Your task to perform on an android device: Show the shopping cart on bestbuy. Search for "logitech g933" on bestbuy, select the first entry, and add it to the cart. Image 0: 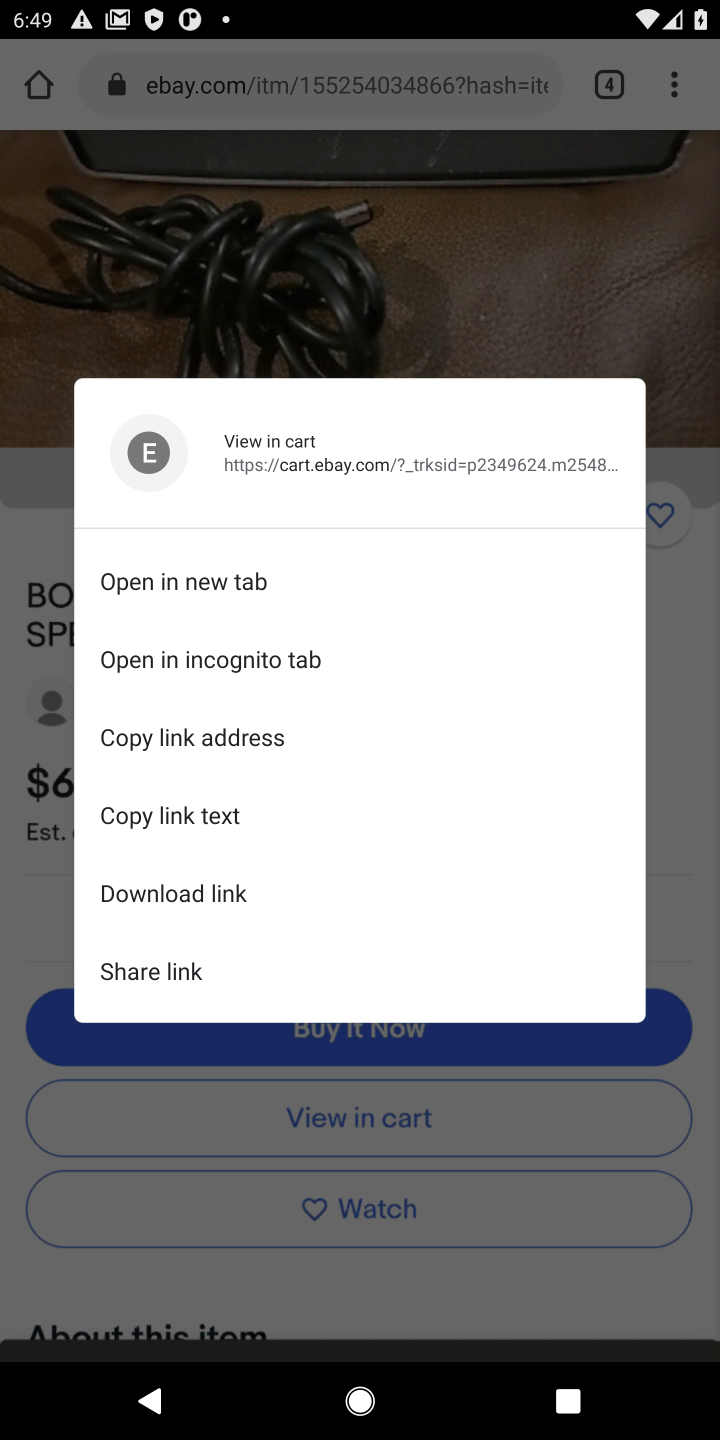
Step 0: click (211, 69)
Your task to perform on an android device: Show the shopping cart on bestbuy. Search for "logitech g933" on bestbuy, select the first entry, and add it to the cart. Image 1: 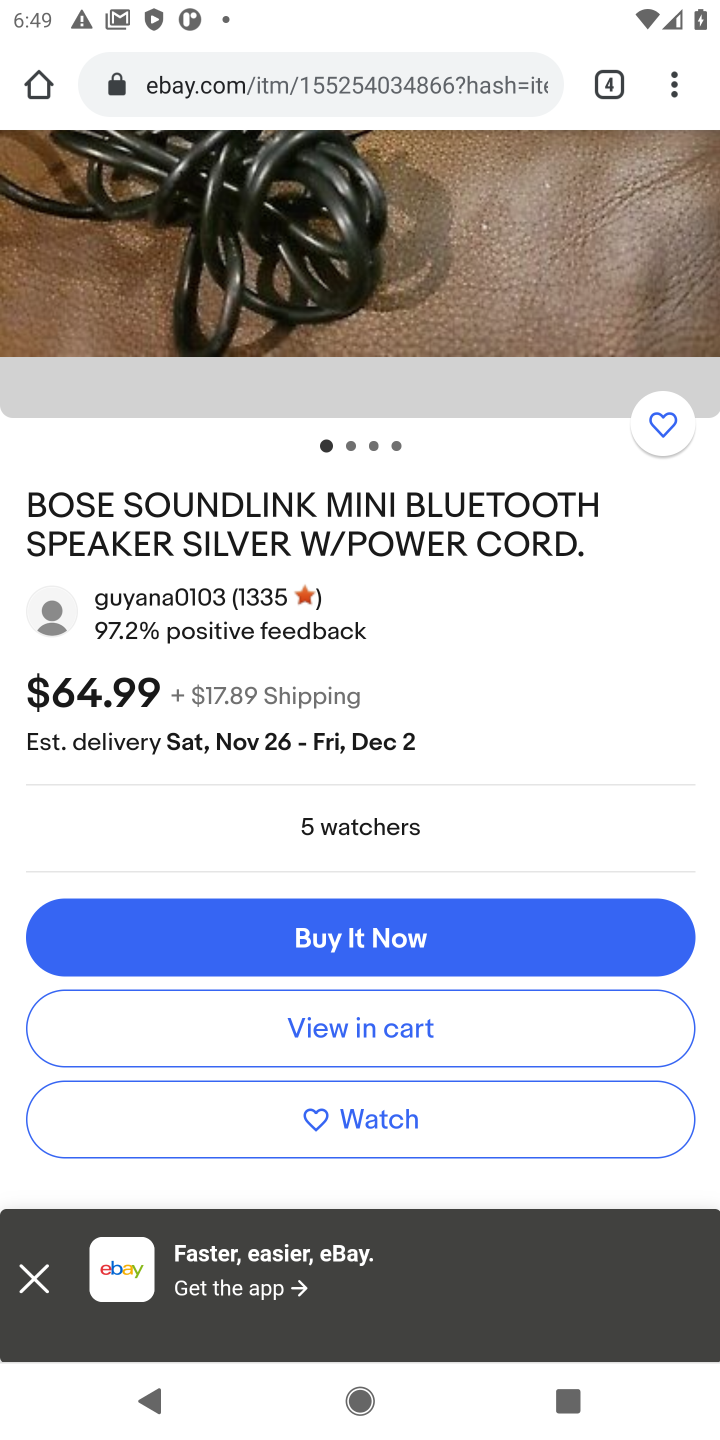
Step 1: click (213, 68)
Your task to perform on an android device: Show the shopping cart on bestbuy. Search for "logitech g933" on bestbuy, select the first entry, and add it to the cart. Image 2: 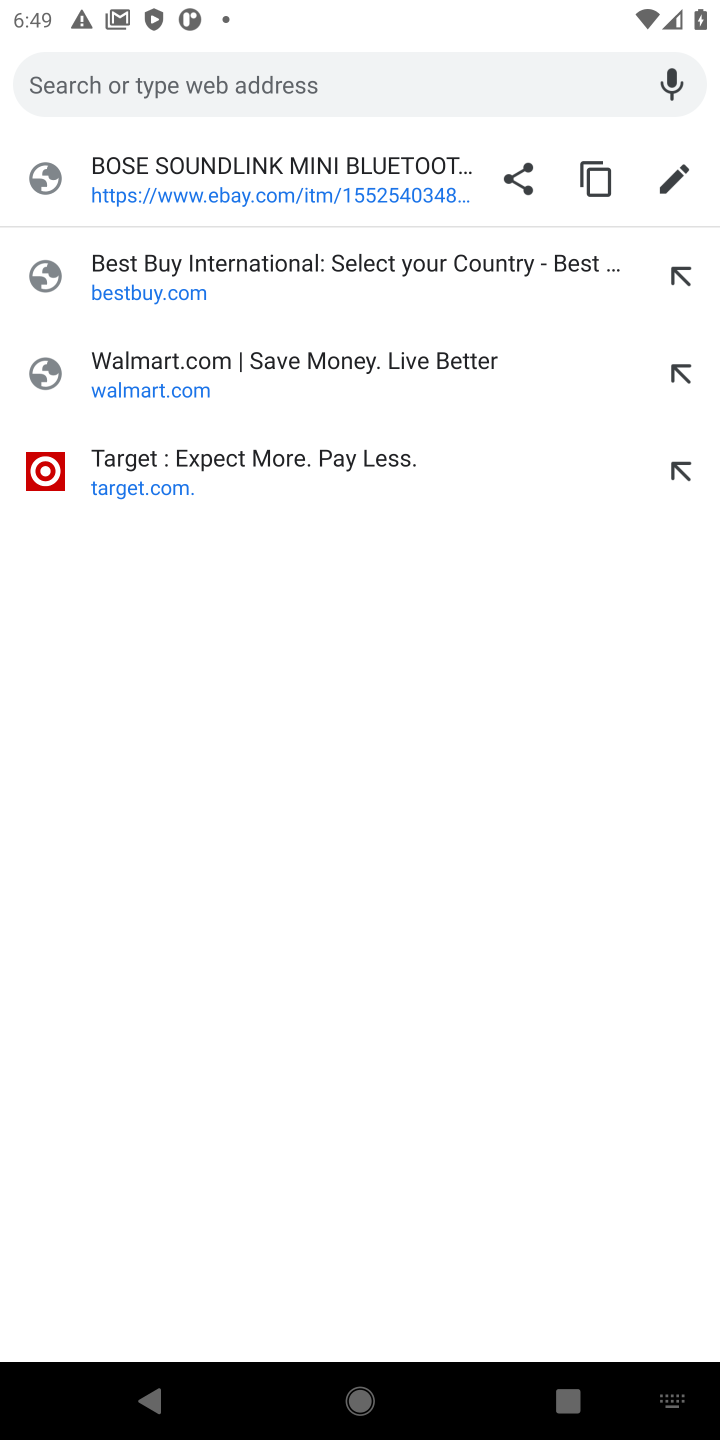
Step 2: type "bestbuy"
Your task to perform on an android device: Show the shopping cart on bestbuy. Search for "logitech g933" on bestbuy, select the first entry, and add it to the cart. Image 3: 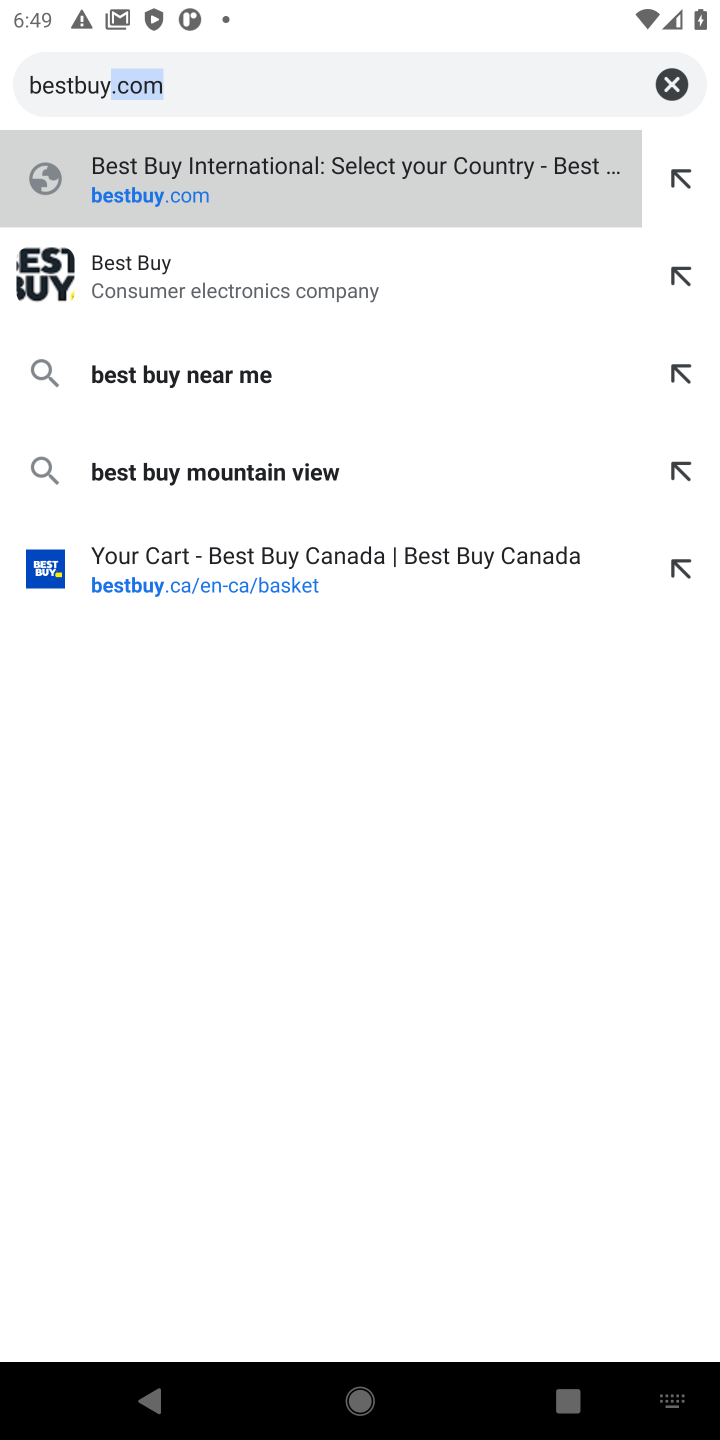
Step 3: press enter
Your task to perform on an android device: Show the shopping cart on bestbuy. Search for "logitech g933" on bestbuy, select the first entry, and add it to the cart. Image 4: 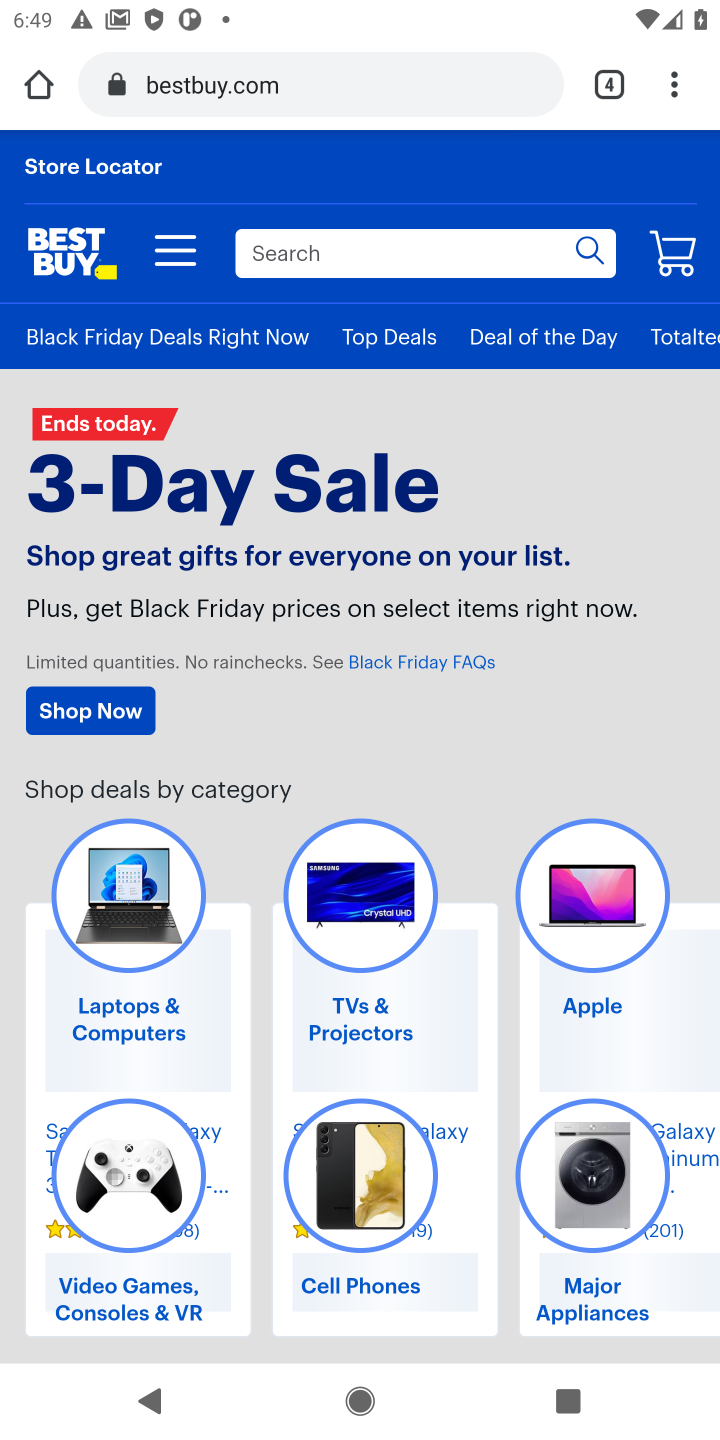
Step 4: click (373, 252)
Your task to perform on an android device: Show the shopping cart on bestbuy. Search for "logitech g933" on bestbuy, select the first entry, and add it to the cart. Image 5: 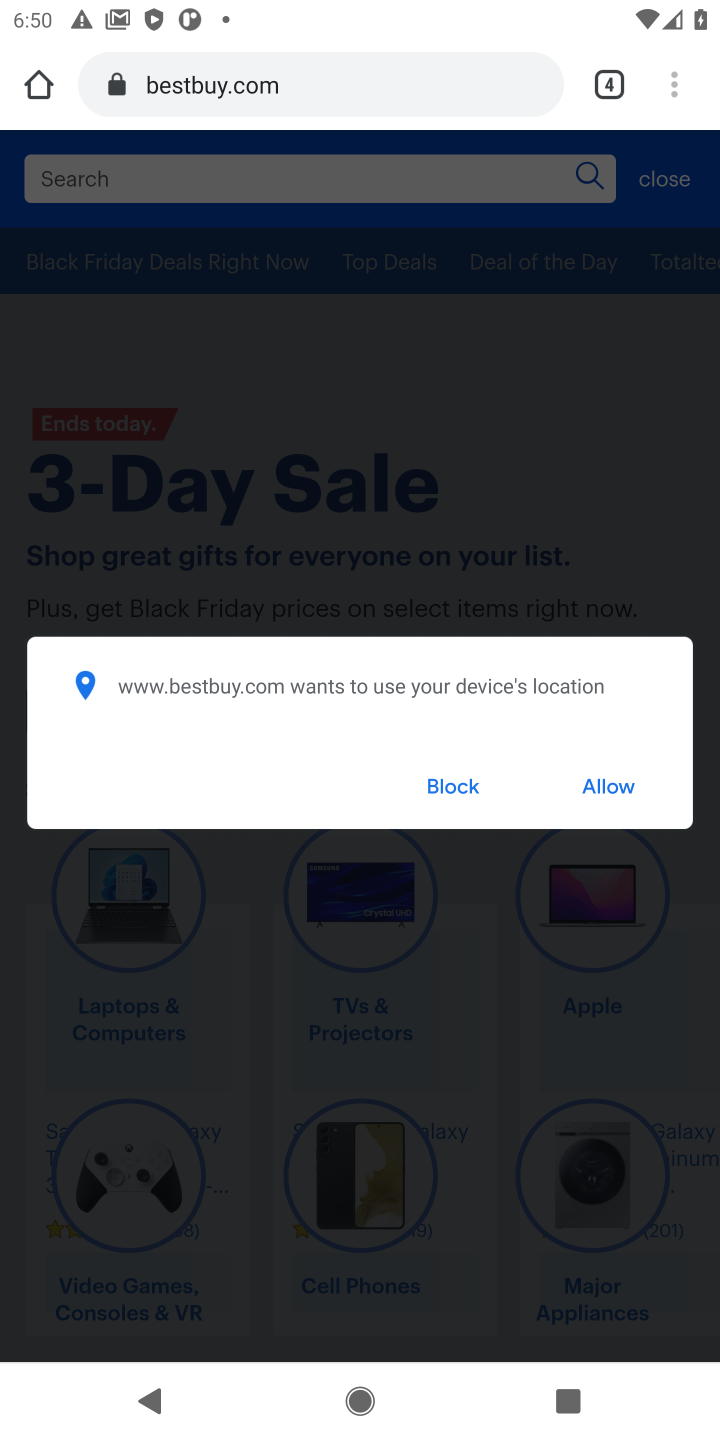
Step 5: click (610, 780)
Your task to perform on an android device: Show the shopping cart on bestbuy. Search for "logitech g933" on bestbuy, select the first entry, and add it to the cart. Image 6: 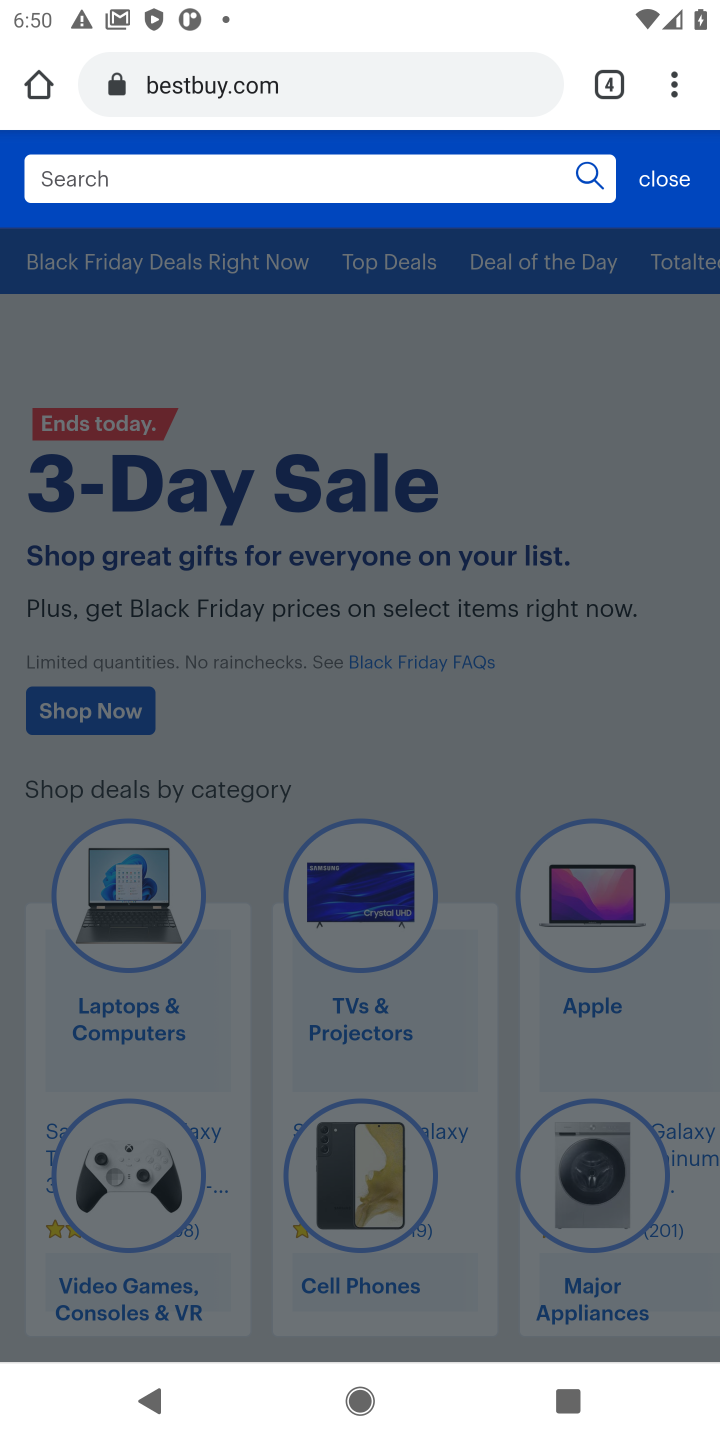
Step 6: type "ogitech g933"
Your task to perform on an android device: Show the shopping cart on bestbuy. Search for "logitech g933" on bestbuy, select the first entry, and add it to the cart. Image 7: 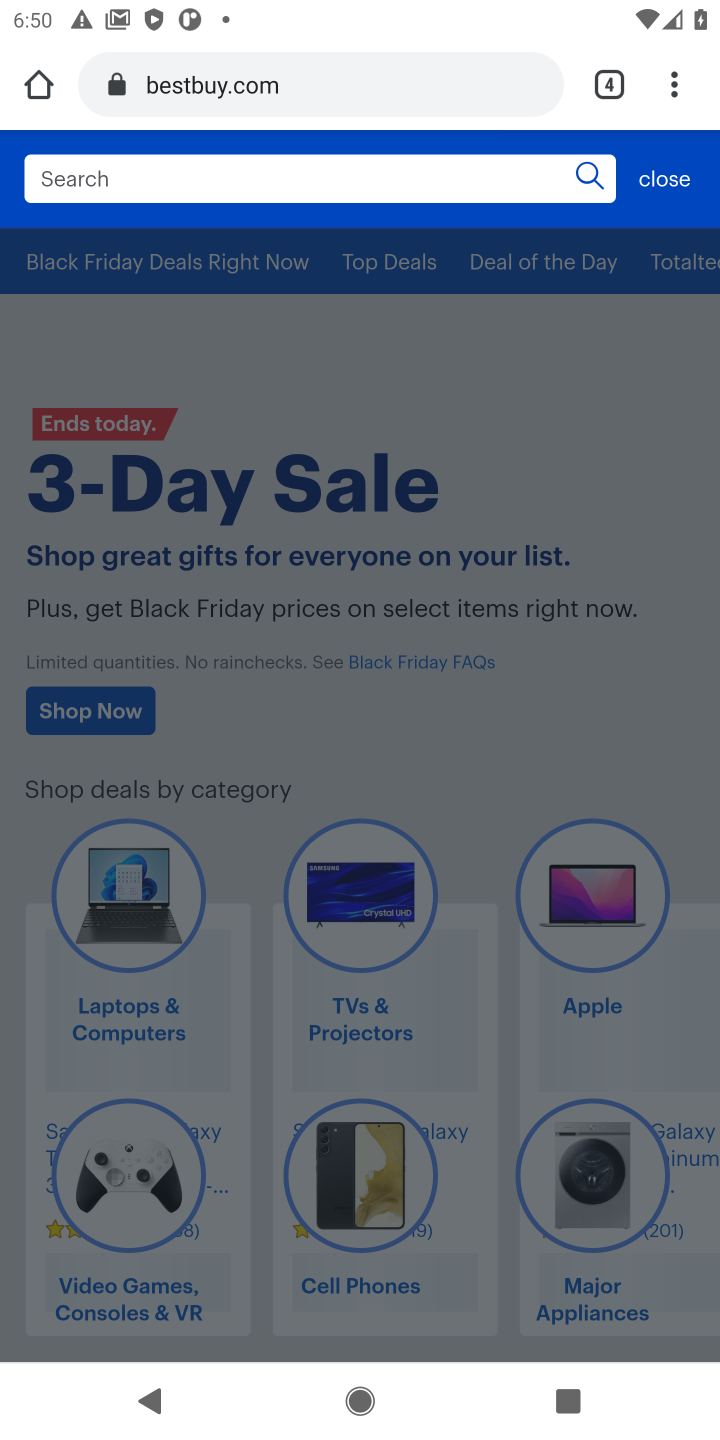
Step 7: press enter
Your task to perform on an android device: Show the shopping cart on bestbuy. Search for "logitech g933" on bestbuy, select the first entry, and add it to the cart. Image 8: 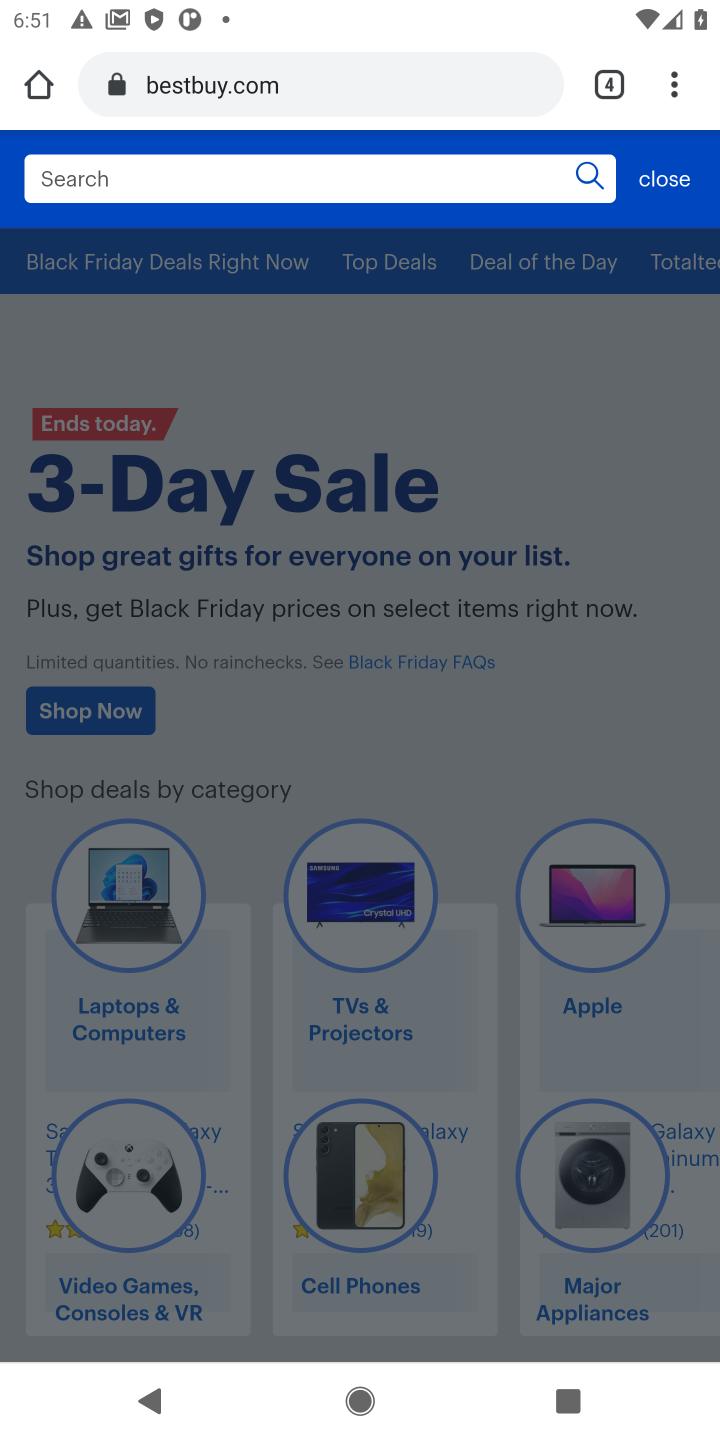
Step 8: click (67, 193)
Your task to perform on an android device: Show the shopping cart on bestbuy. Search for "logitech g933" on bestbuy, select the first entry, and add it to the cart. Image 9: 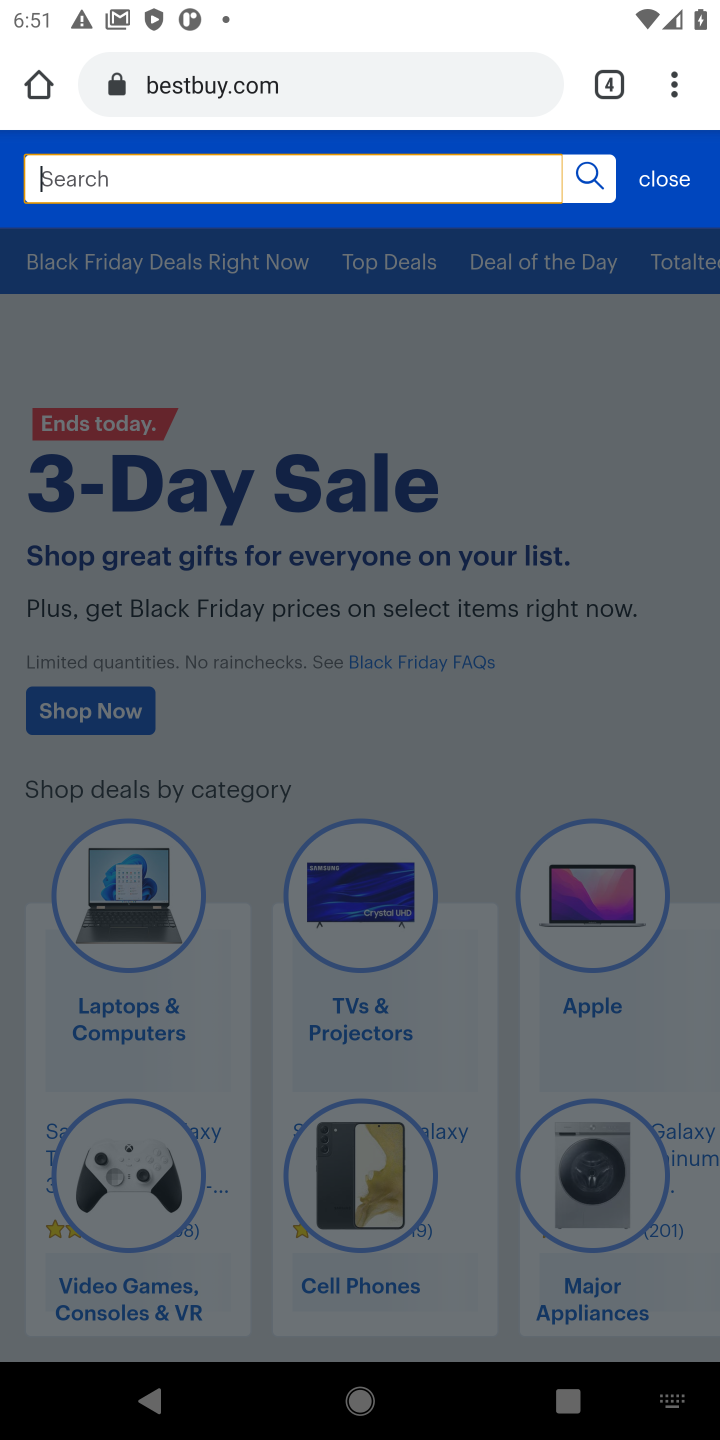
Step 9: type "logitech g933""
Your task to perform on an android device: Show the shopping cart on bestbuy. Search for "logitech g933" on bestbuy, select the first entry, and add it to the cart. Image 10: 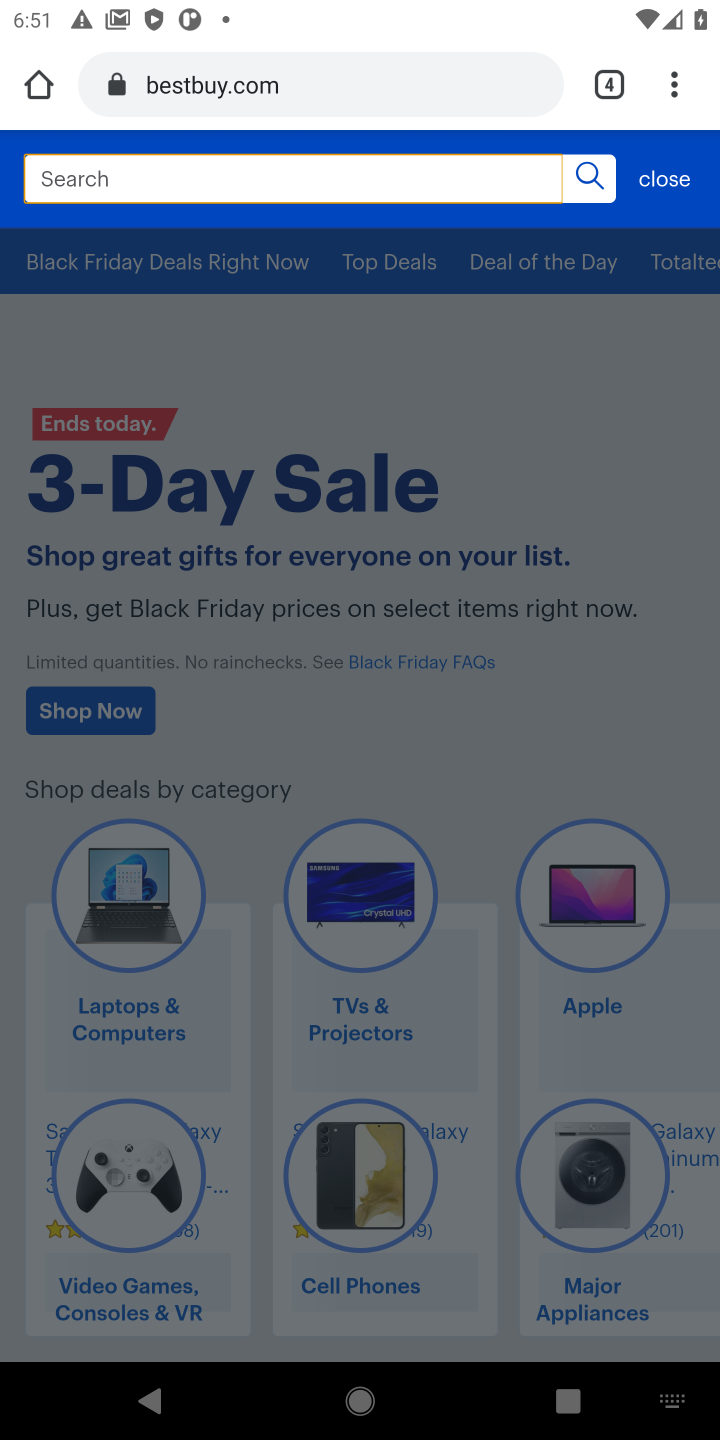
Step 10: press enter
Your task to perform on an android device: Show the shopping cart on bestbuy. Search for "logitech g933" on bestbuy, select the first entry, and add it to the cart. Image 11: 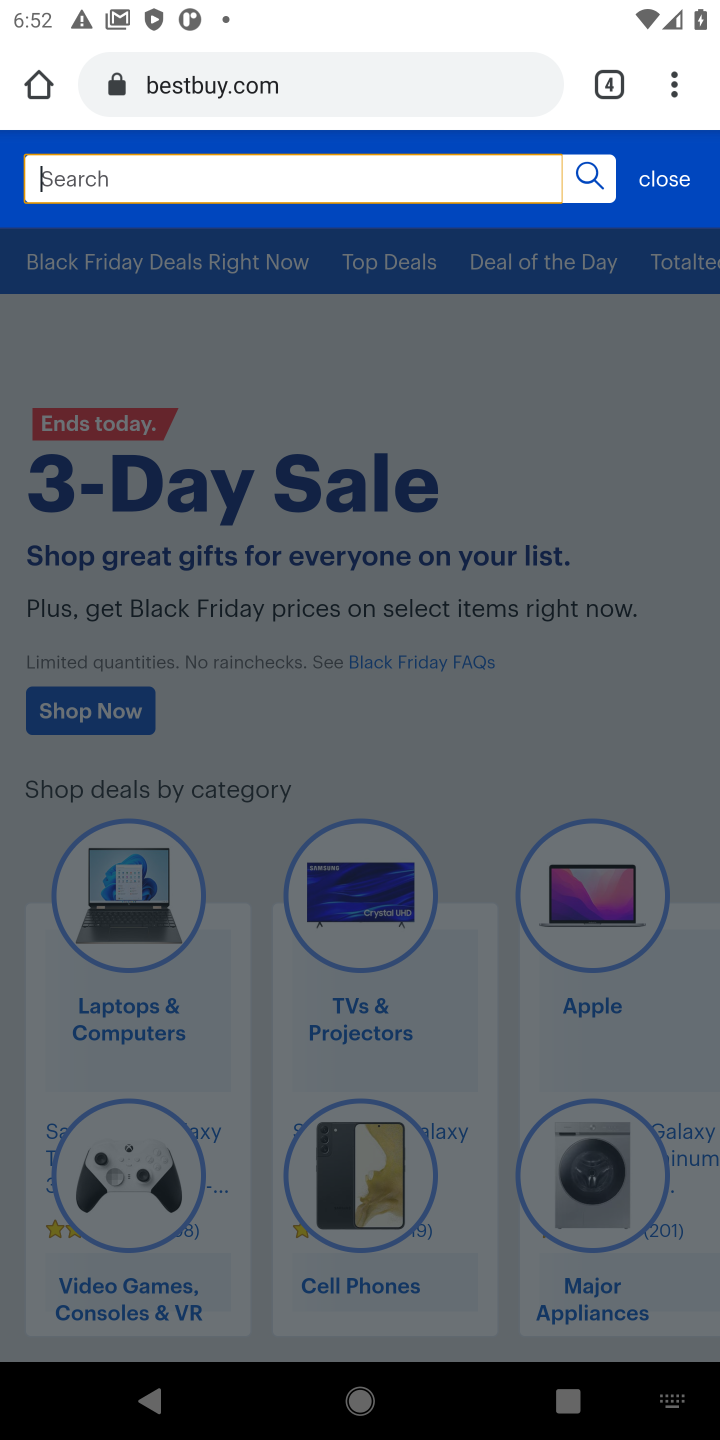
Step 11: click (130, 182)
Your task to perform on an android device: Show the shopping cart on bestbuy. Search for "logitech g933" on bestbuy, select the first entry, and add it to the cart. Image 12: 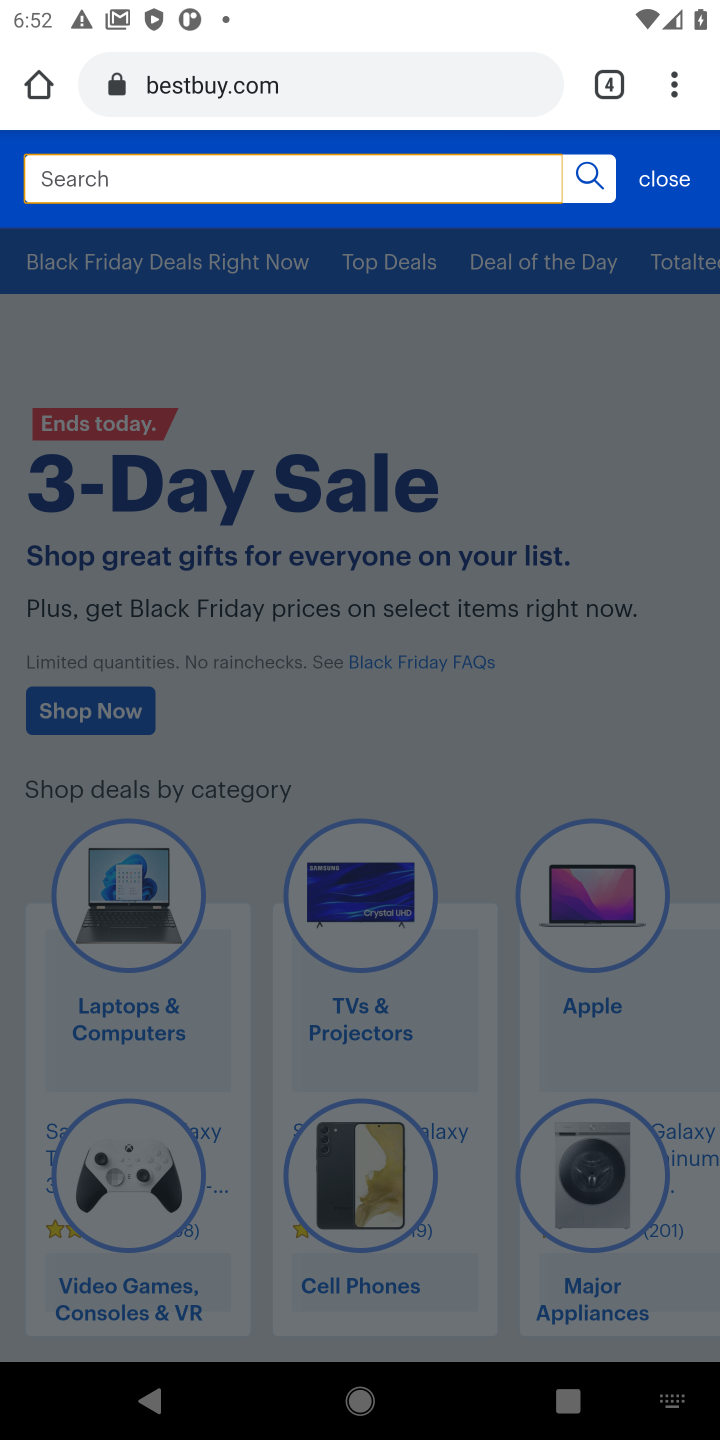
Step 12: type "logitech g933""
Your task to perform on an android device: Show the shopping cart on bestbuy. Search for "logitech g933" on bestbuy, select the first entry, and add it to the cart. Image 13: 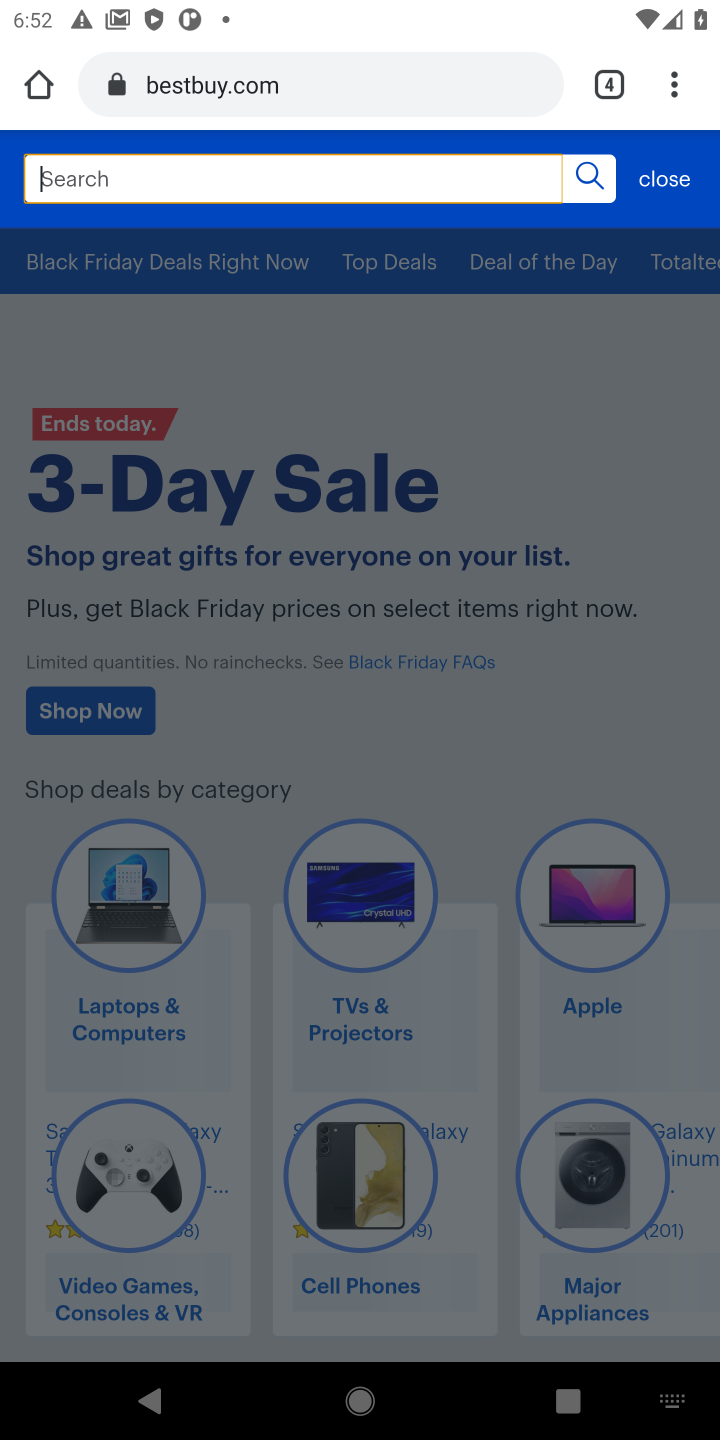
Step 13: press enter
Your task to perform on an android device: Show the shopping cart on bestbuy. Search for "logitech g933" on bestbuy, select the first entry, and add it to the cart. Image 14: 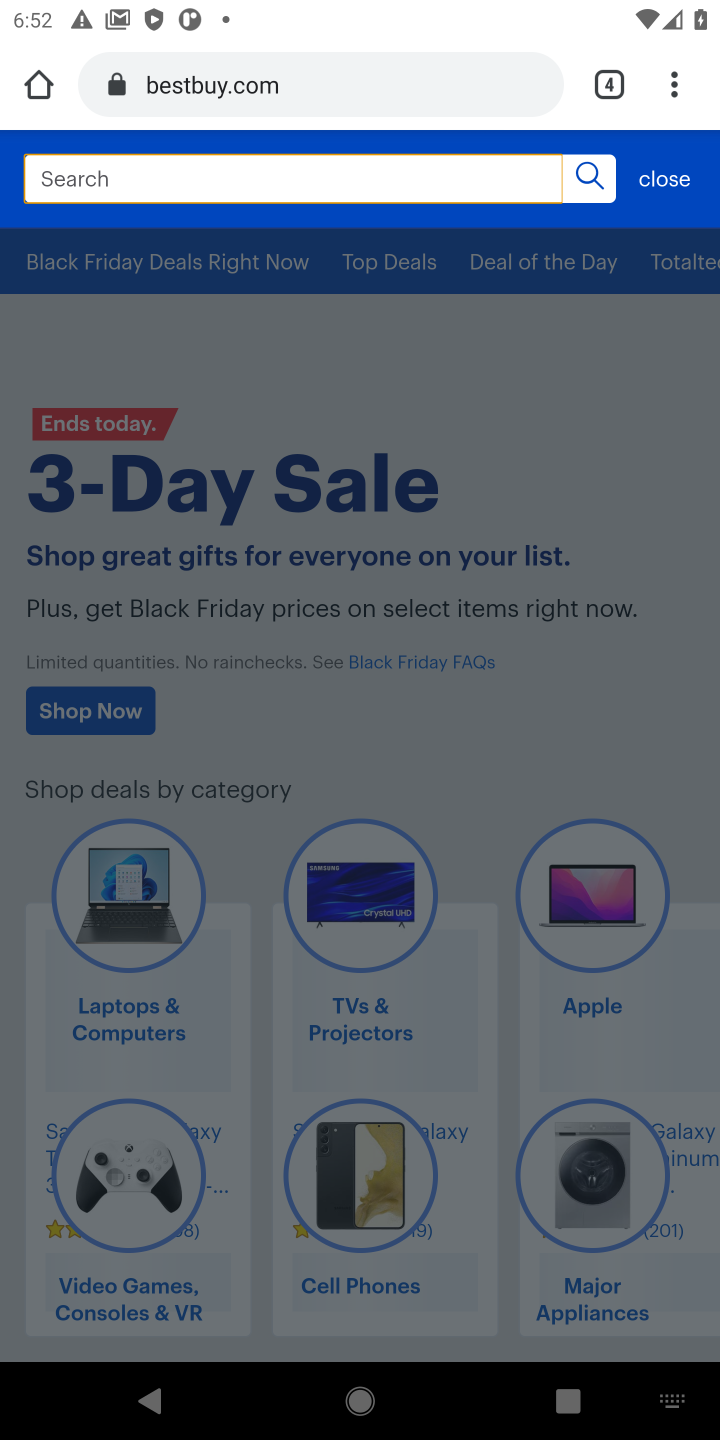
Step 14: click (187, 159)
Your task to perform on an android device: Show the shopping cart on bestbuy. Search for "logitech g933" on bestbuy, select the first entry, and add it to the cart. Image 15: 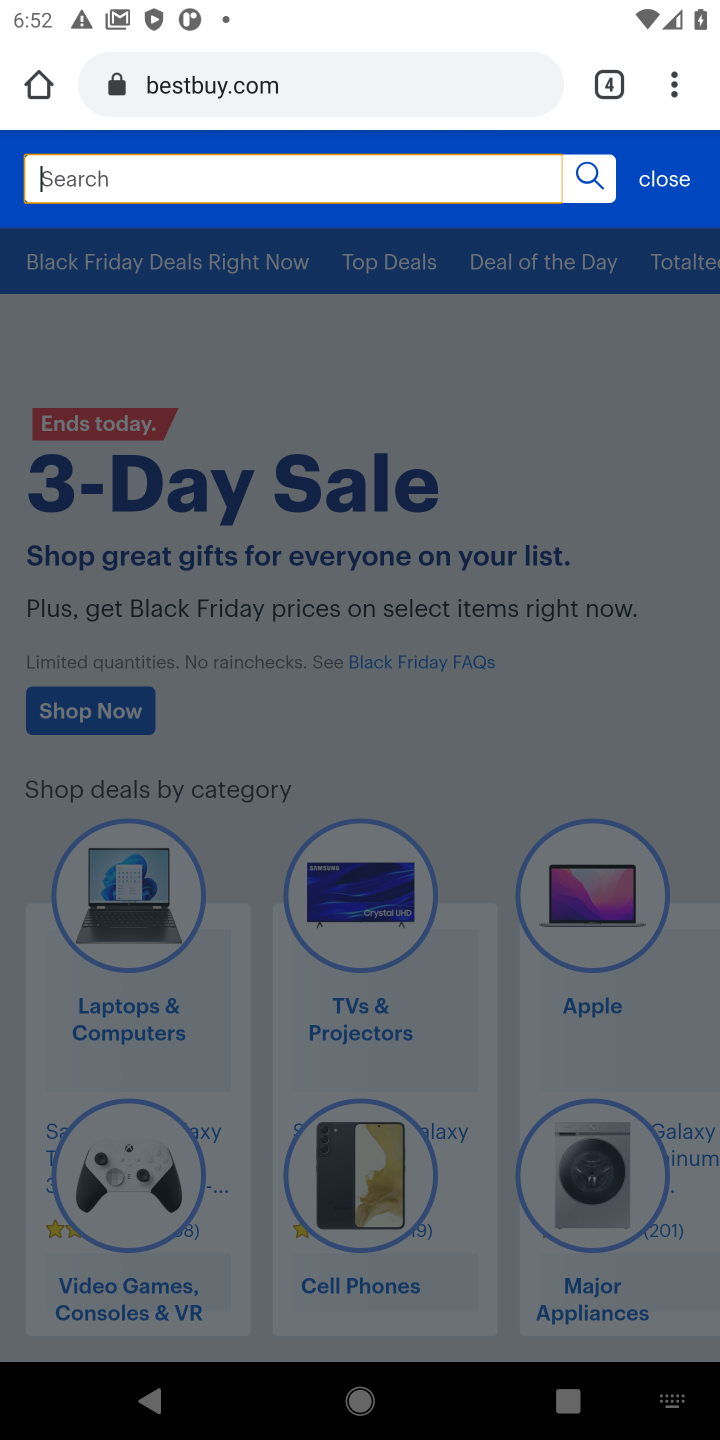
Step 15: type "logitech g933""
Your task to perform on an android device: Show the shopping cart on bestbuy. Search for "logitech g933" on bestbuy, select the first entry, and add it to the cart. Image 16: 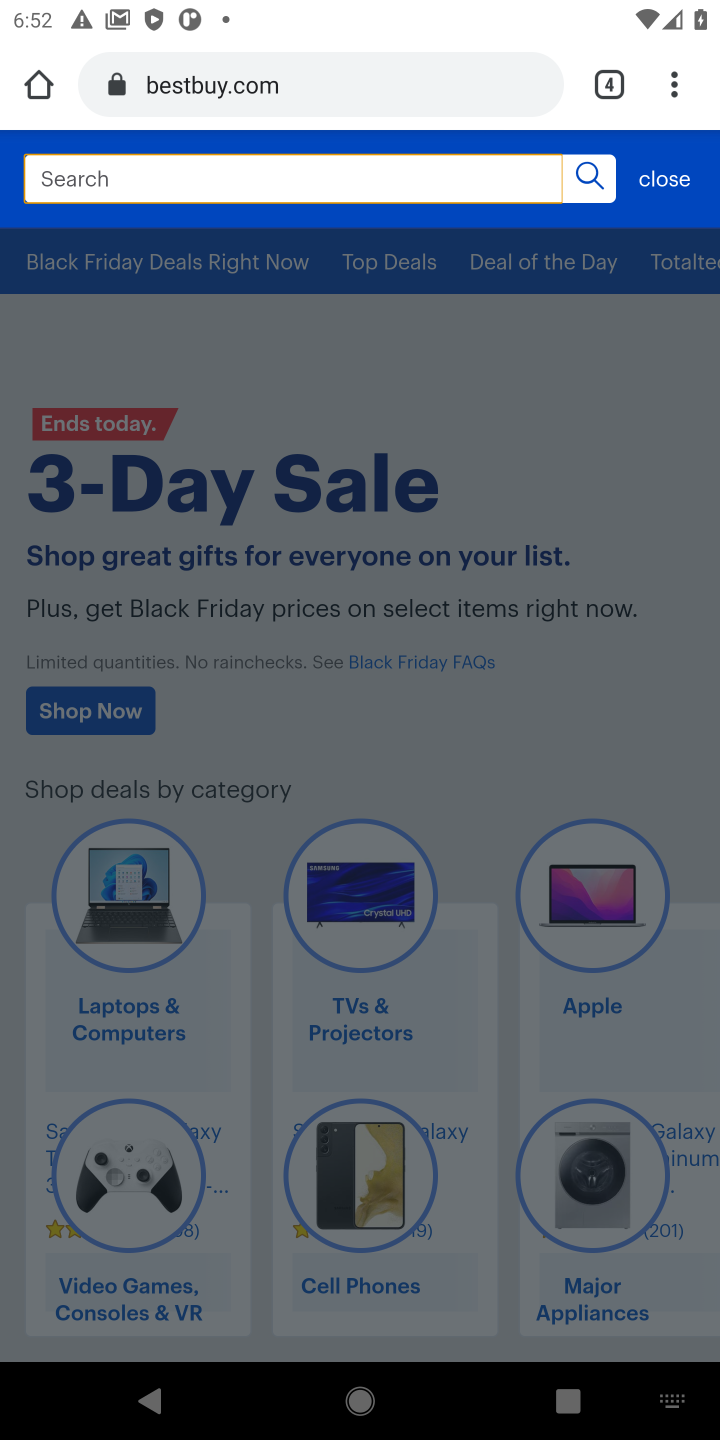
Step 16: press enter
Your task to perform on an android device: Show the shopping cart on bestbuy. Search for "logitech g933" on bestbuy, select the first entry, and add it to the cart. Image 17: 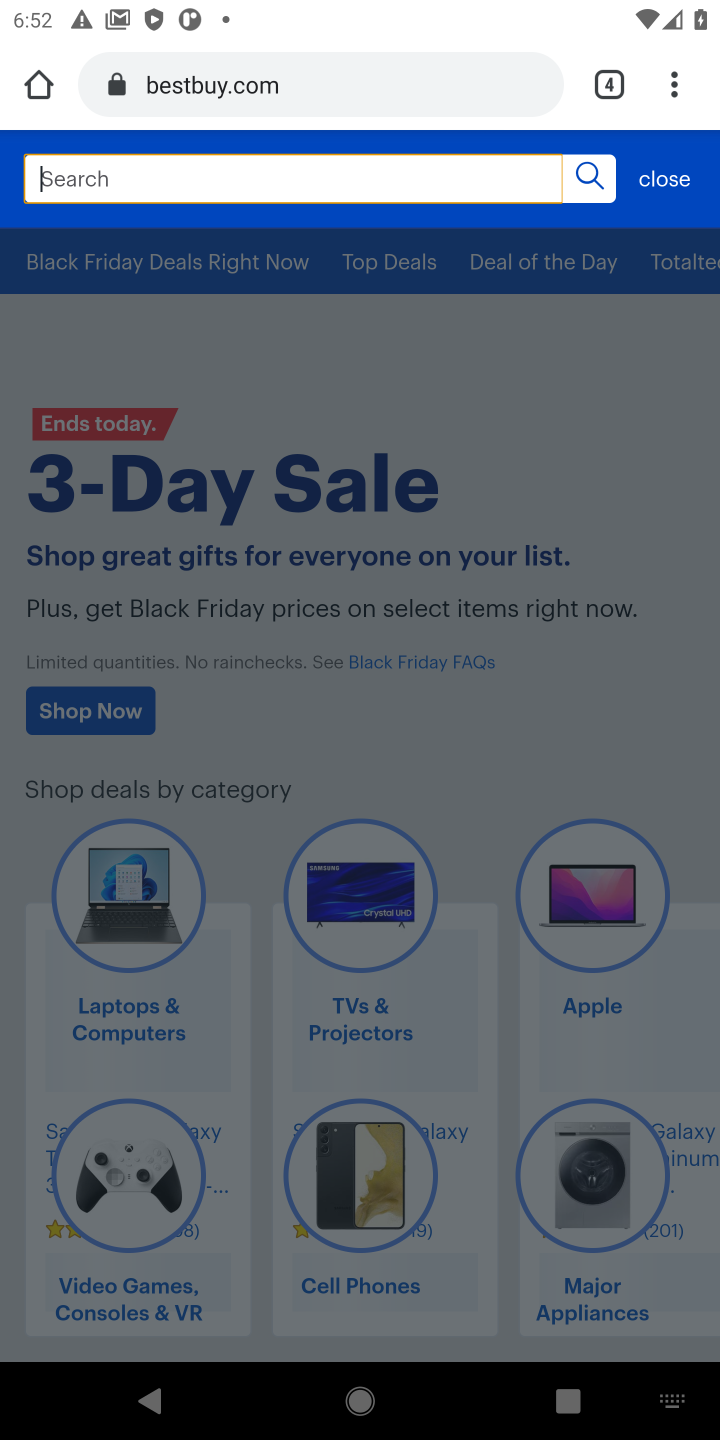
Step 17: type "logitech g933""
Your task to perform on an android device: Show the shopping cart on bestbuy. Search for "logitech g933" on bestbuy, select the first entry, and add it to the cart. Image 18: 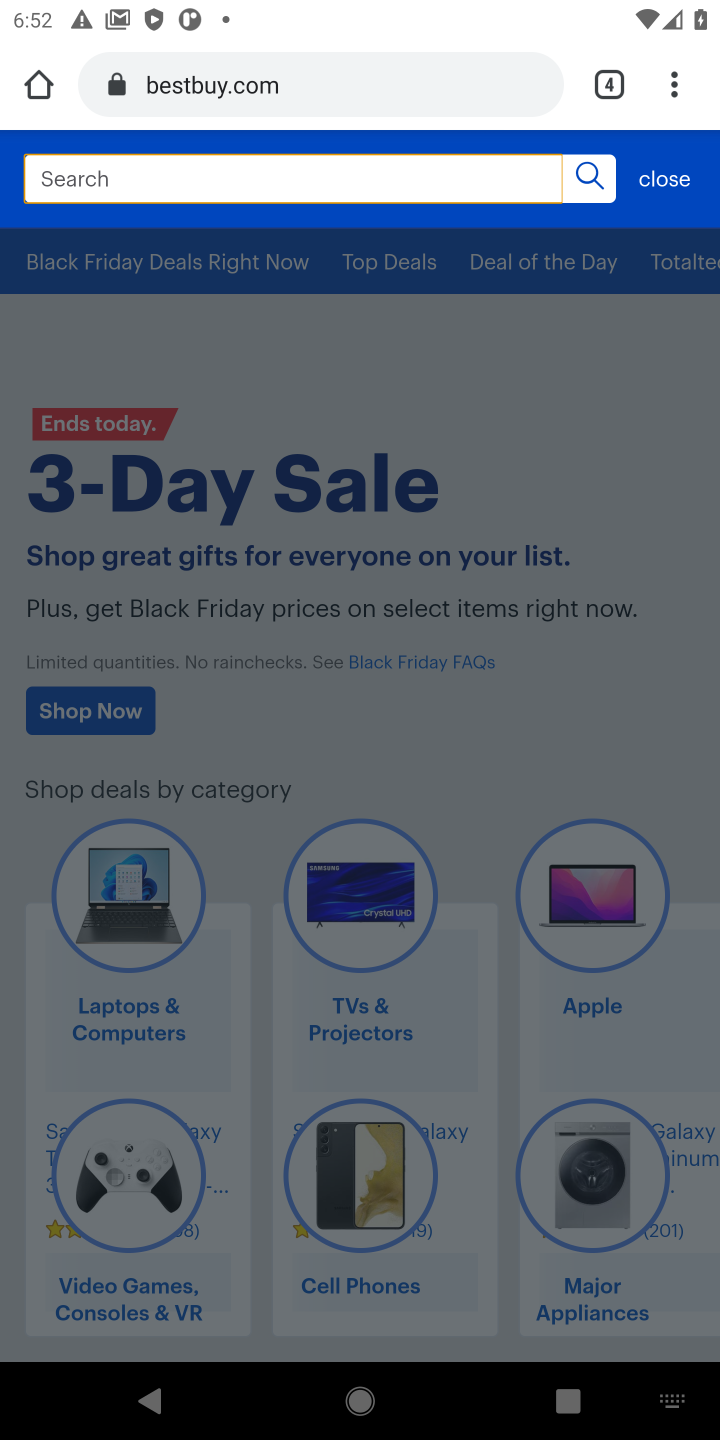
Step 18: press enter
Your task to perform on an android device: Show the shopping cart on bestbuy. Search for "logitech g933" on bestbuy, select the first entry, and add it to the cart. Image 19: 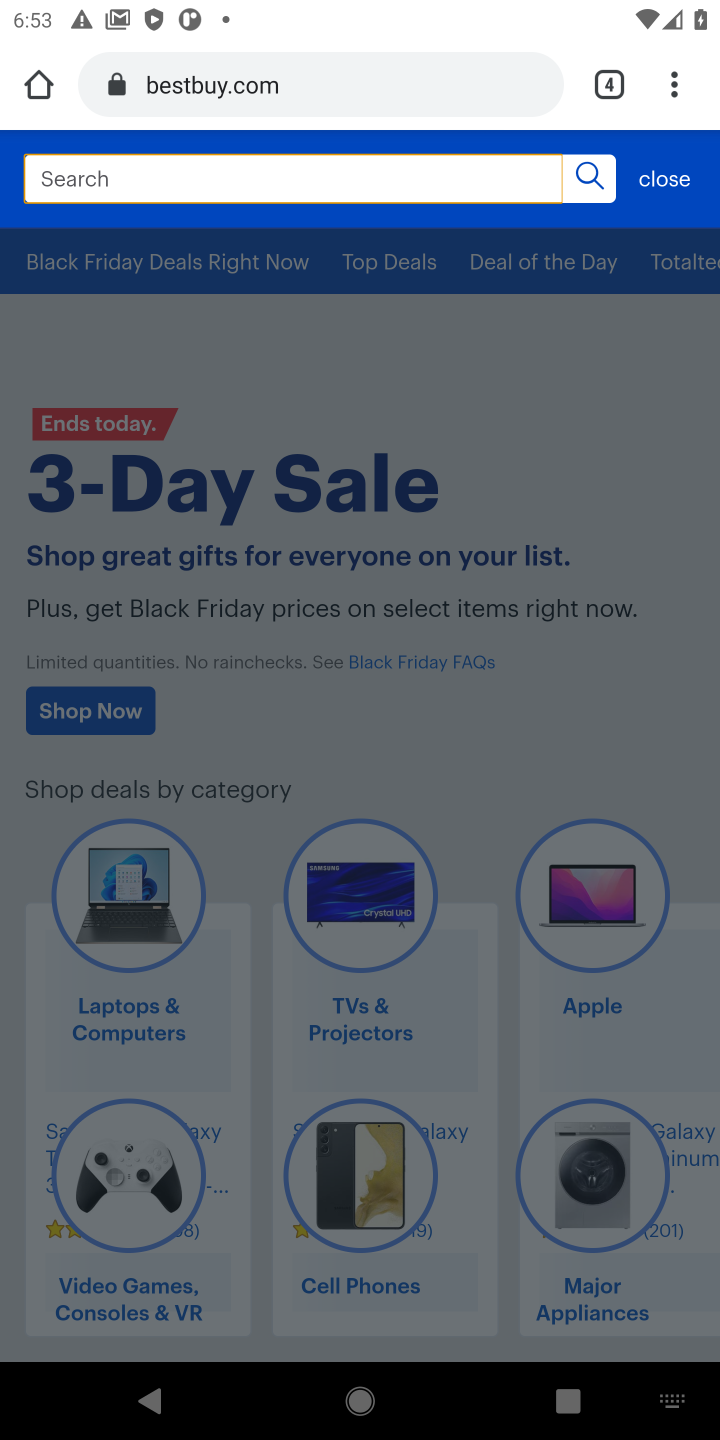
Step 19: click (260, 180)
Your task to perform on an android device: Show the shopping cart on bestbuy. Search for "logitech g933" on bestbuy, select the first entry, and add it to the cart. Image 20: 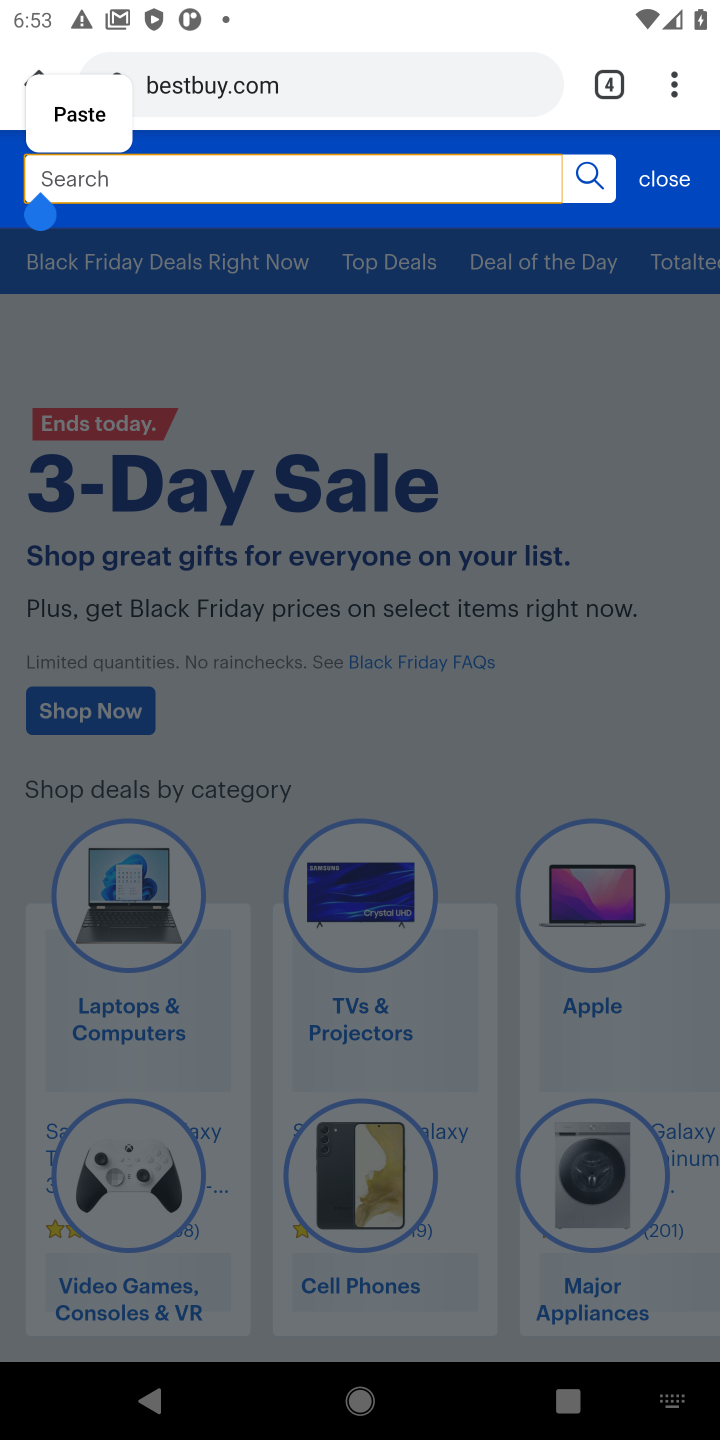
Step 20: type "logitech g933""
Your task to perform on an android device: Show the shopping cart on bestbuy. Search for "logitech g933" on bestbuy, select the first entry, and add it to the cart. Image 21: 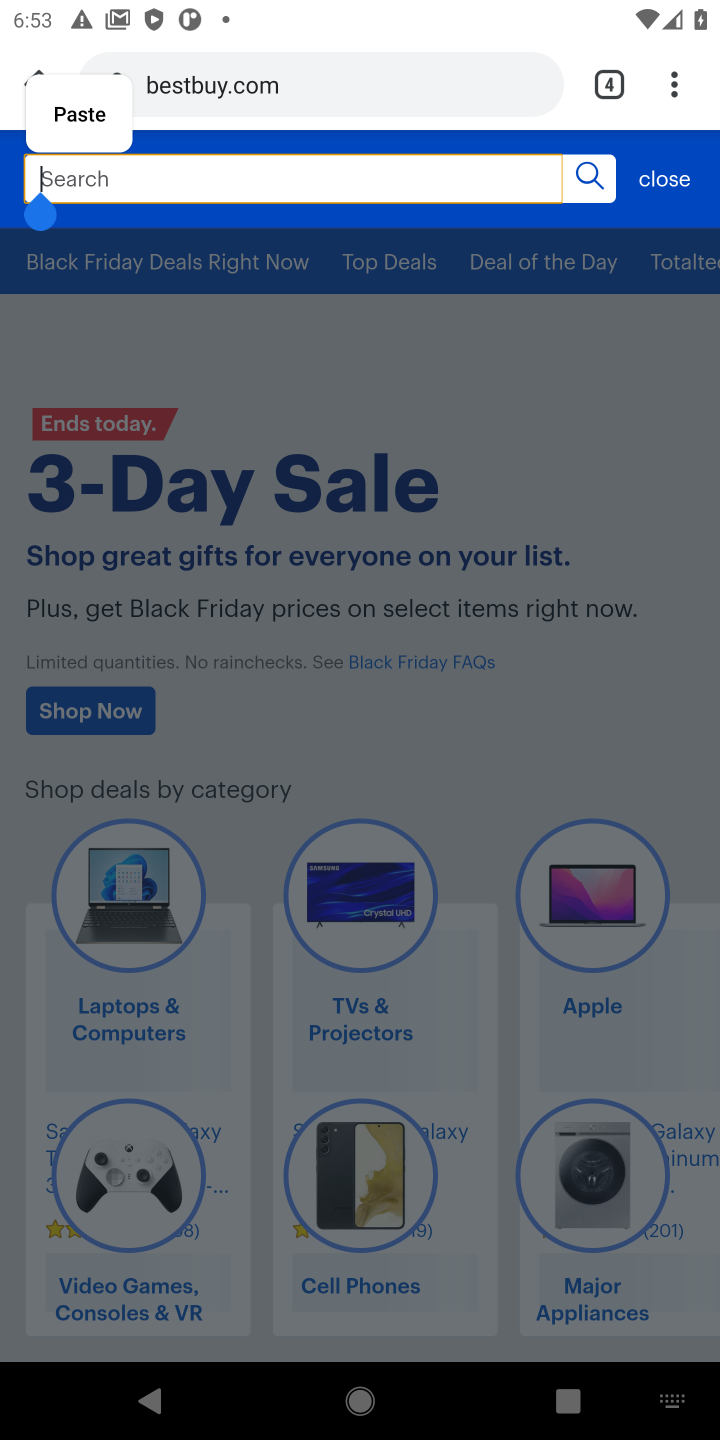
Step 21: click (115, 114)
Your task to perform on an android device: Show the shopping cart on bestbuy. Search for "logitech g933" on bestbuy, select the first entry, and add it to the cart. Image 22: 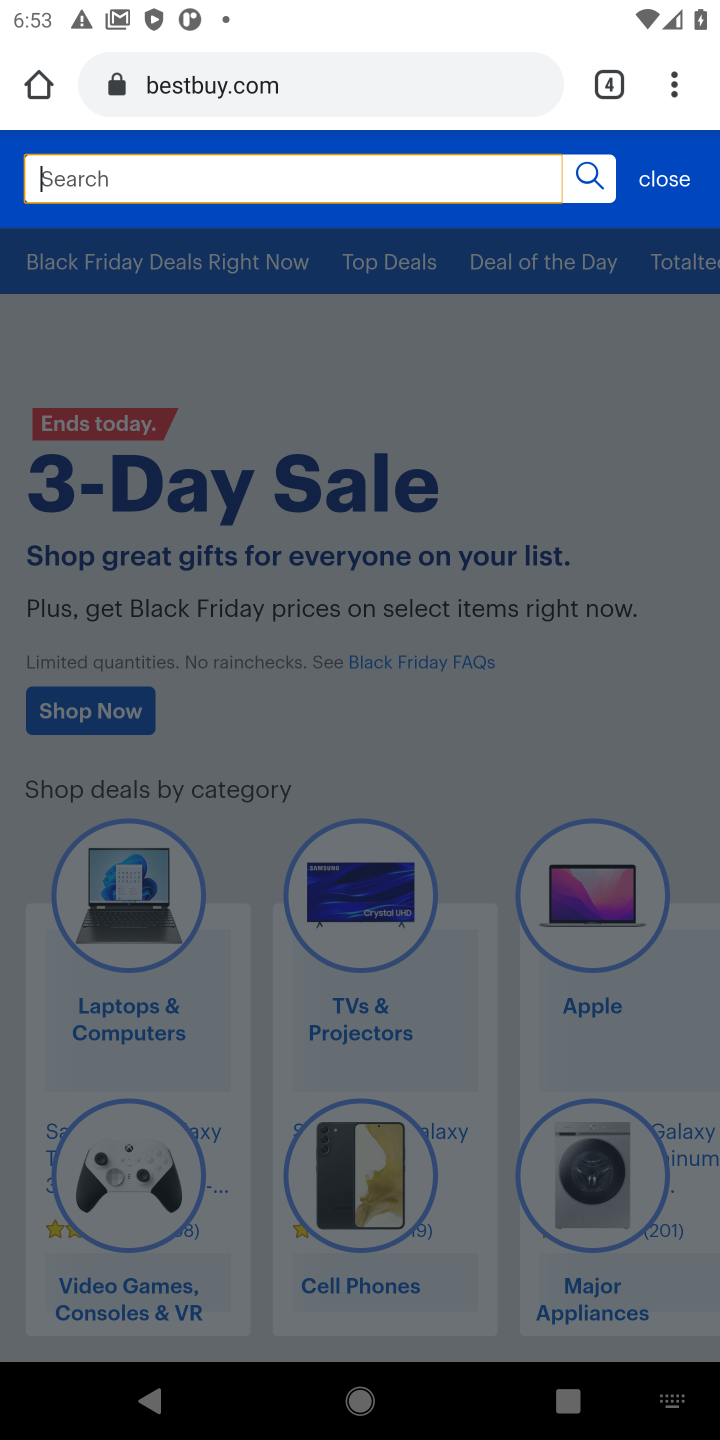
Step 22: type "logitech g933""
Your task to perform on an android device: Show the shopping cart on bestbuy. Search for "logitech g933" on bestbuy, select the first entry, and add it to the cart. Image 23: 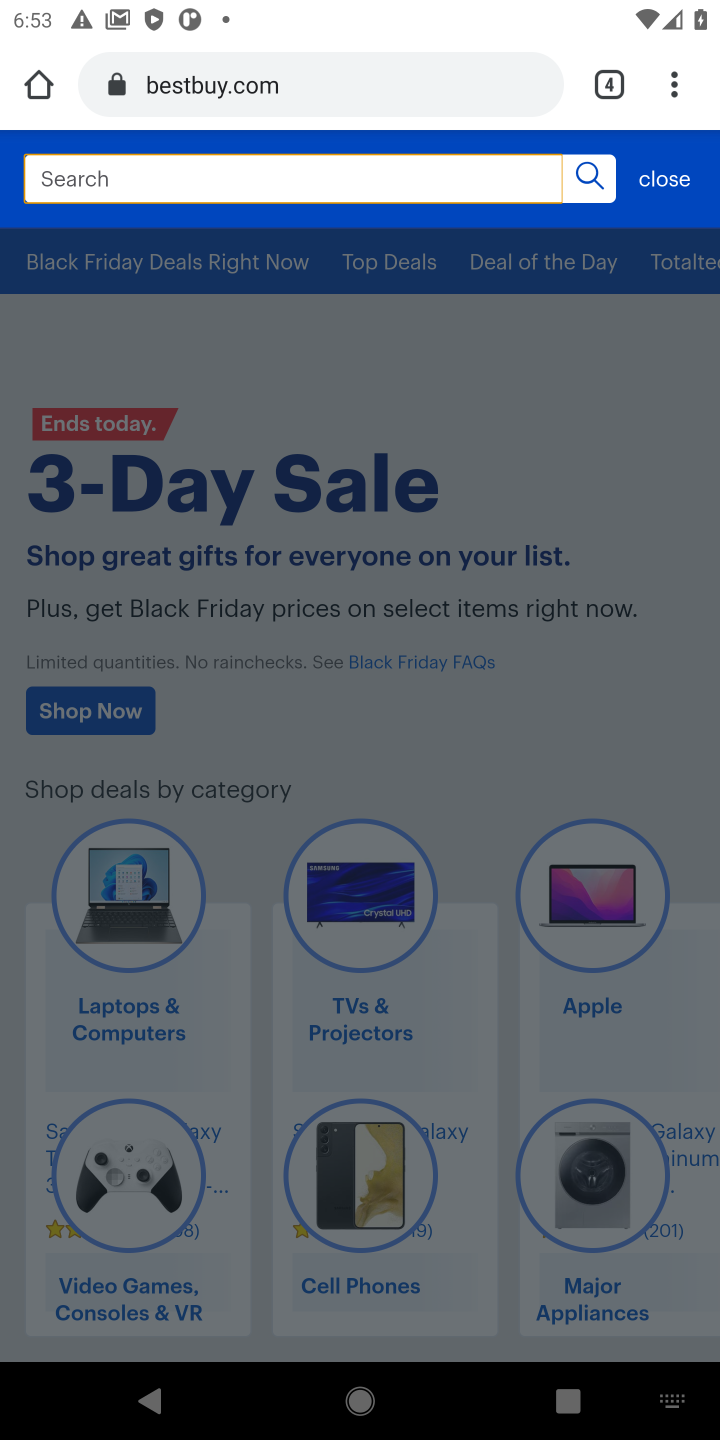
Step 23: press enter
Your task to perform on an android device: Show the shopping cart on bestbuy. Search for "logitech g933" on bestbuy, select the first entry, and add it to the cart. Image 24: 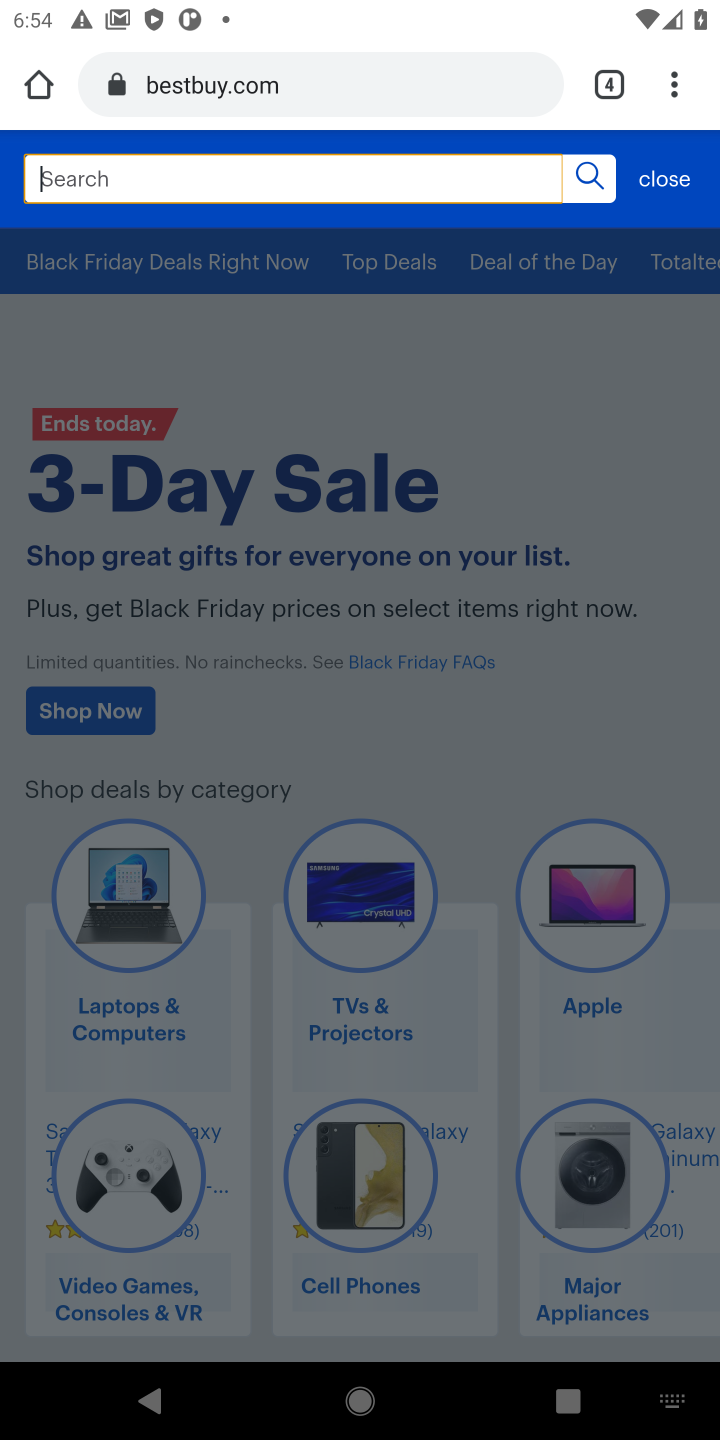
Step 24: type "logitech g933"
Your task to perform on an android device: Show the shopping cart on bestbuy. Search for "logitech g933" on bestbuy, select the first entry, and add it to the cart. Image 25: 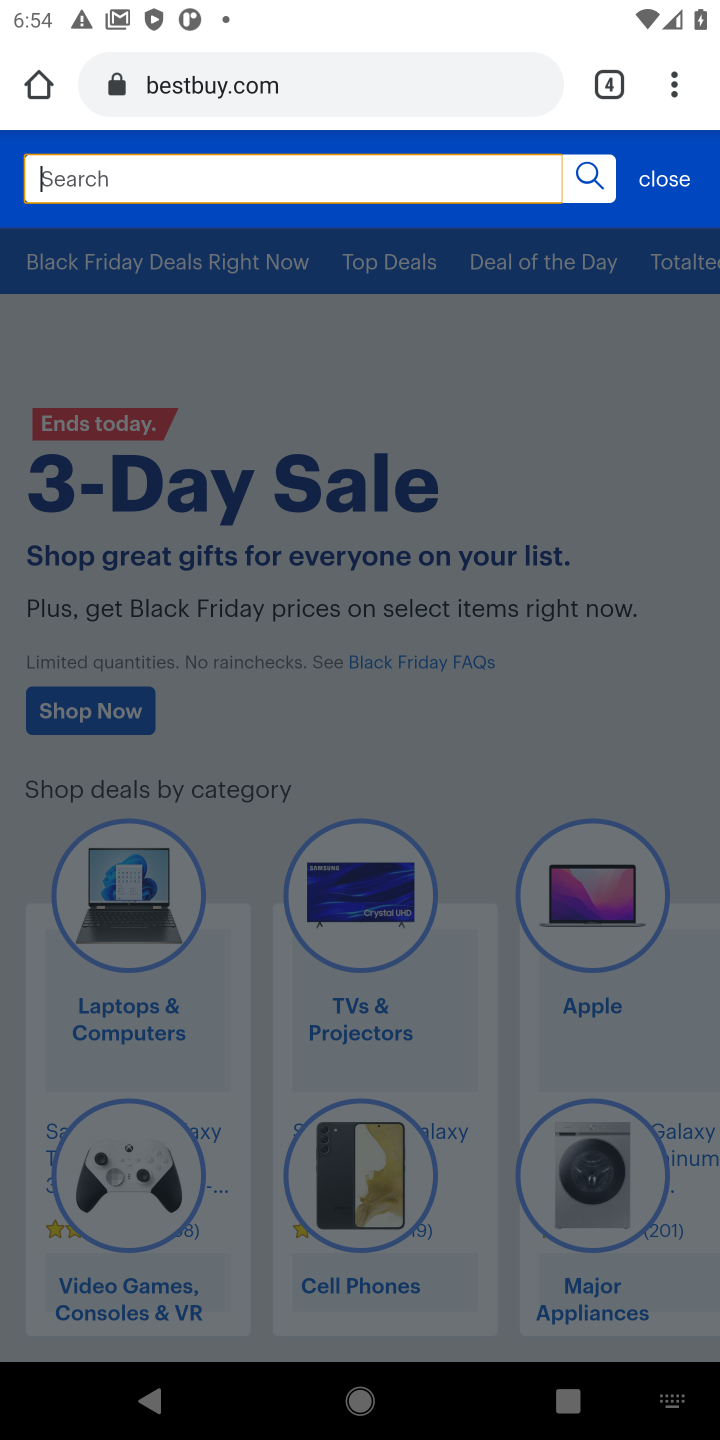
Step 25: press enter
Your task to perform on an android device: Show the shopping cart on bestbuy. Search for "logitech g933" on bestbuy, select the first entry, and add it to the cart. Image 26: 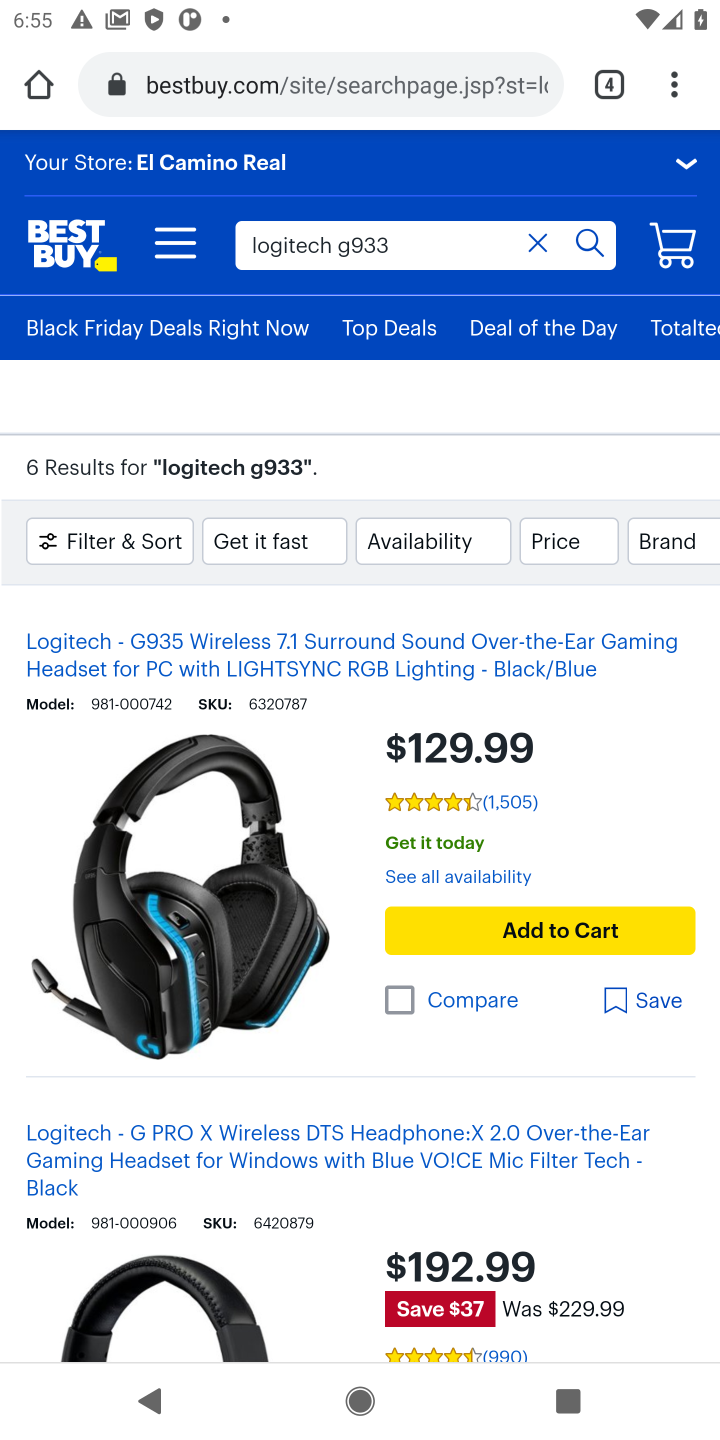
Step 26: drag from (446, 754) to (425, 566)
Your task to perform on an android device: Show the shopping cart on bestbuy. Search for "logitech g933" on bestbuy, select the first entry, and add it to the cart. Image 27: 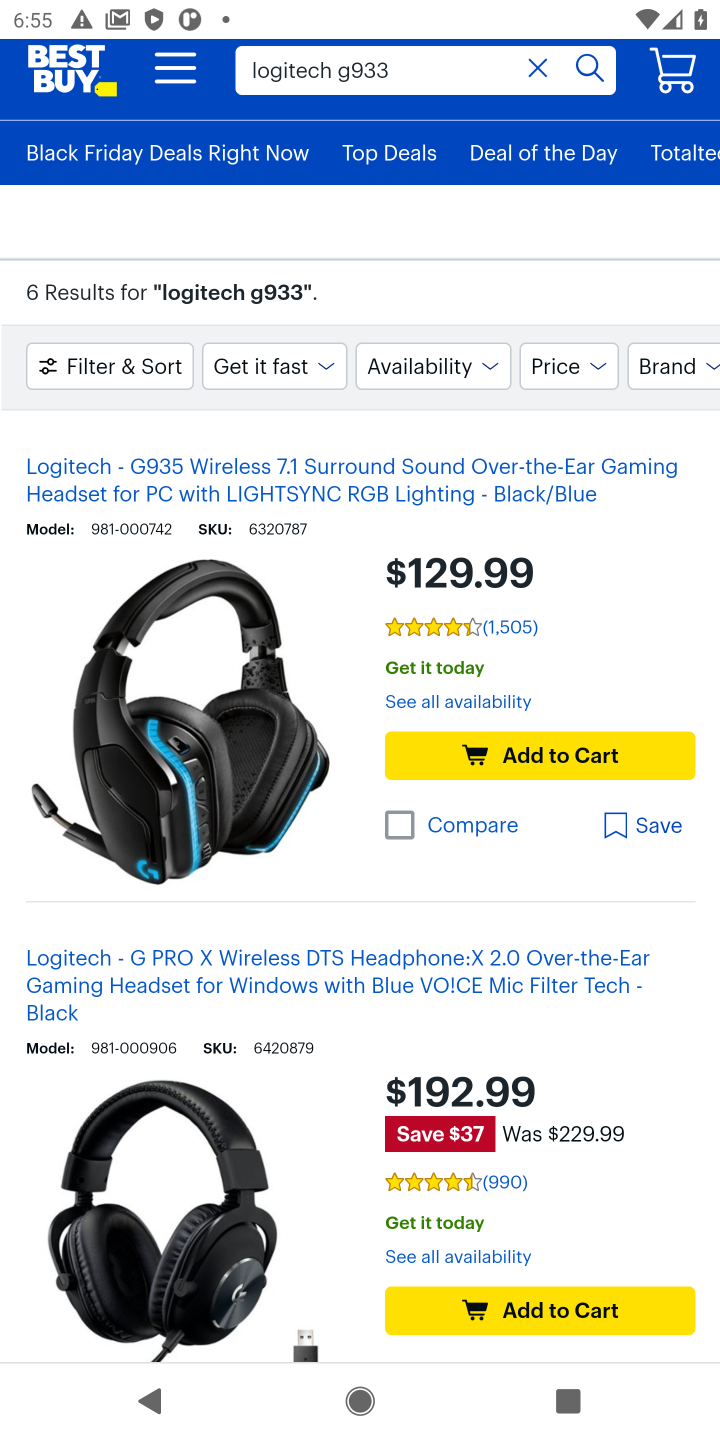
Step 27: click (538, 756)
Your task to perform on an android device: Show the shopping cart on bestbuy. Search for "logitech g933" on bestbuy, select the first entry, and add it to the cart. Image 28: 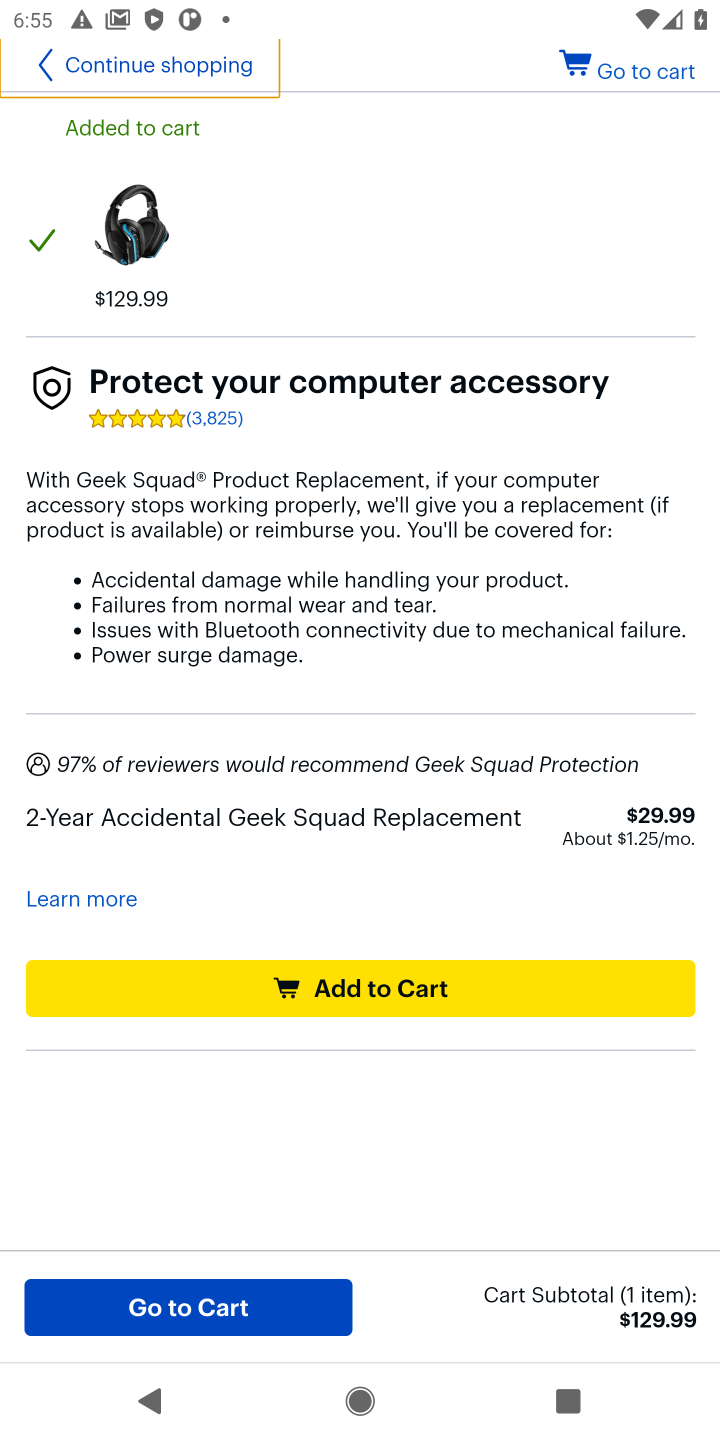
Step 28: click (251, 1298)
Your task to perform on an android device: Show the shopping cart on bestbuy. Search for "logitech g933" on bestbuy, select the first entry, and add it to the cart. Image 29: 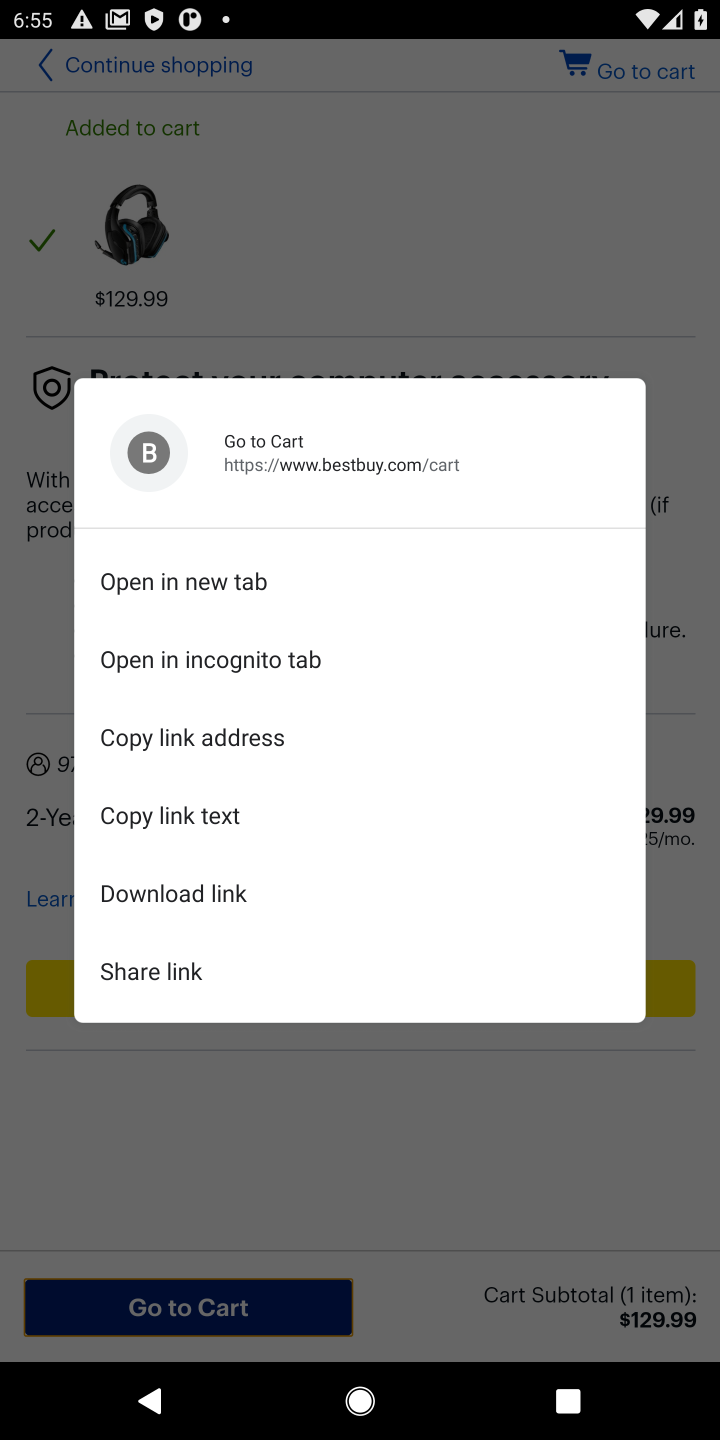
Step 29: click (281, 1193)
Your task to perform on an android device: Show the shopping cart on bestbuy. Search for "logitech g933" on bestbuy, select the first entry, and add it to the cart. Image 30: 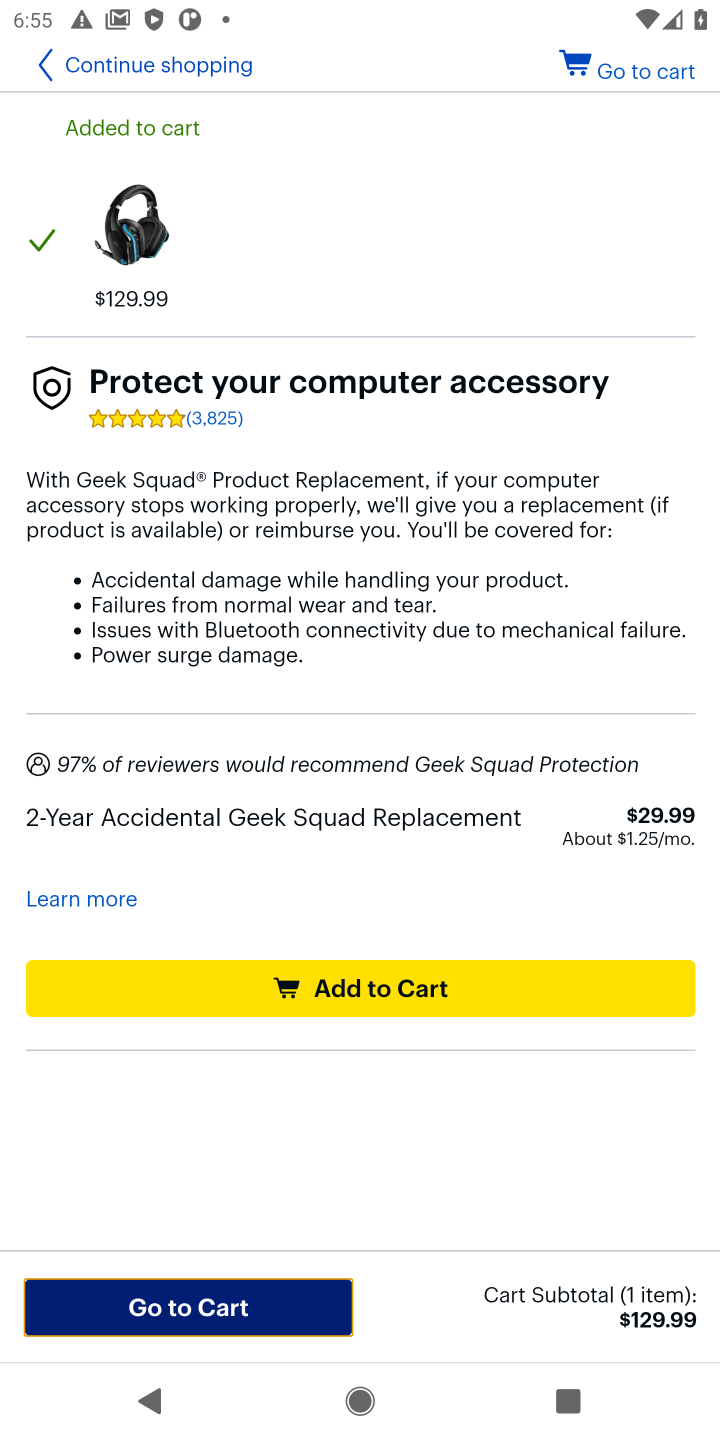
Step 30: click (361, 1008)
Your task to perform on an android device: Show the shopping cart on bestbuy. Search for "logitech g933" on bestbuy, select the first entry, and add it to the cart. Image 31: 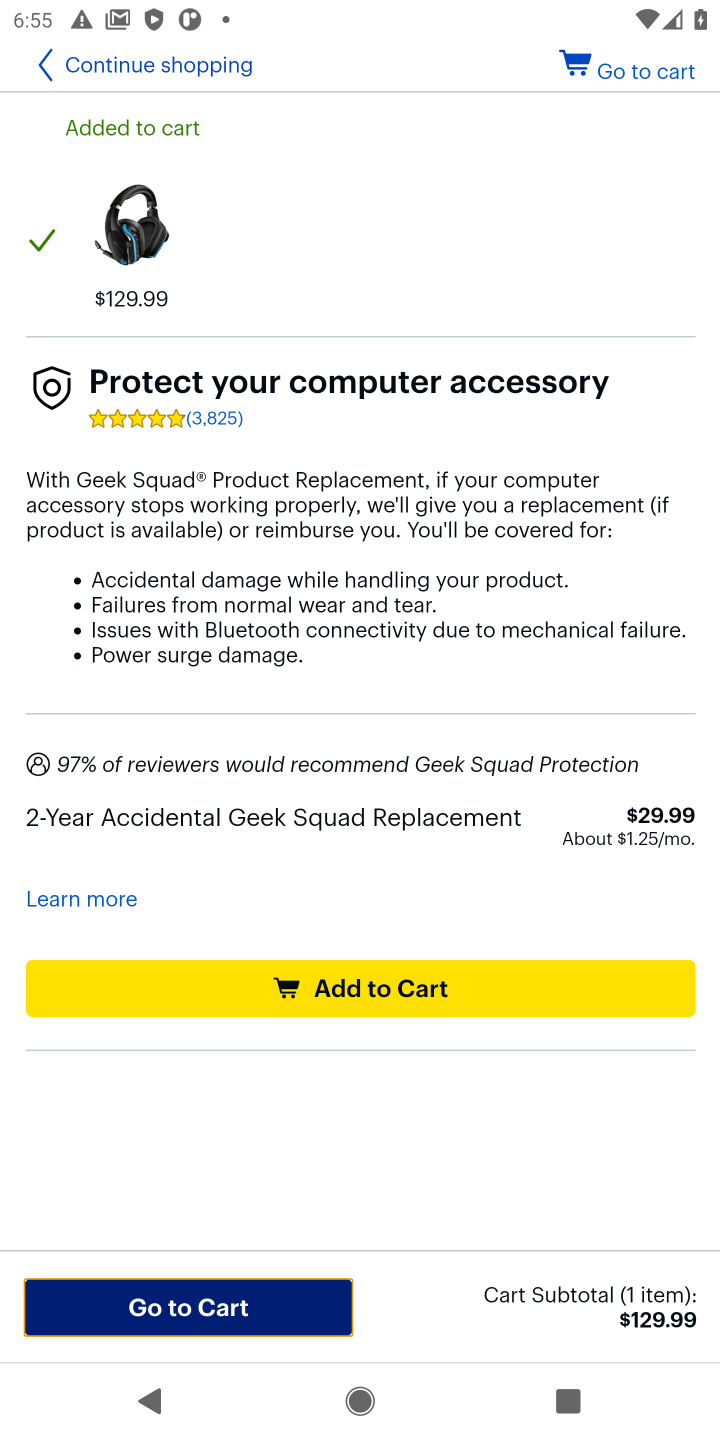
Step 31: click (361, 980)
Your task to perform on an android device: Show the shopping cart on bestbuy. Search for "logitech g933" on bestbuy, select the first entry, and add it to the cart. Image 32: 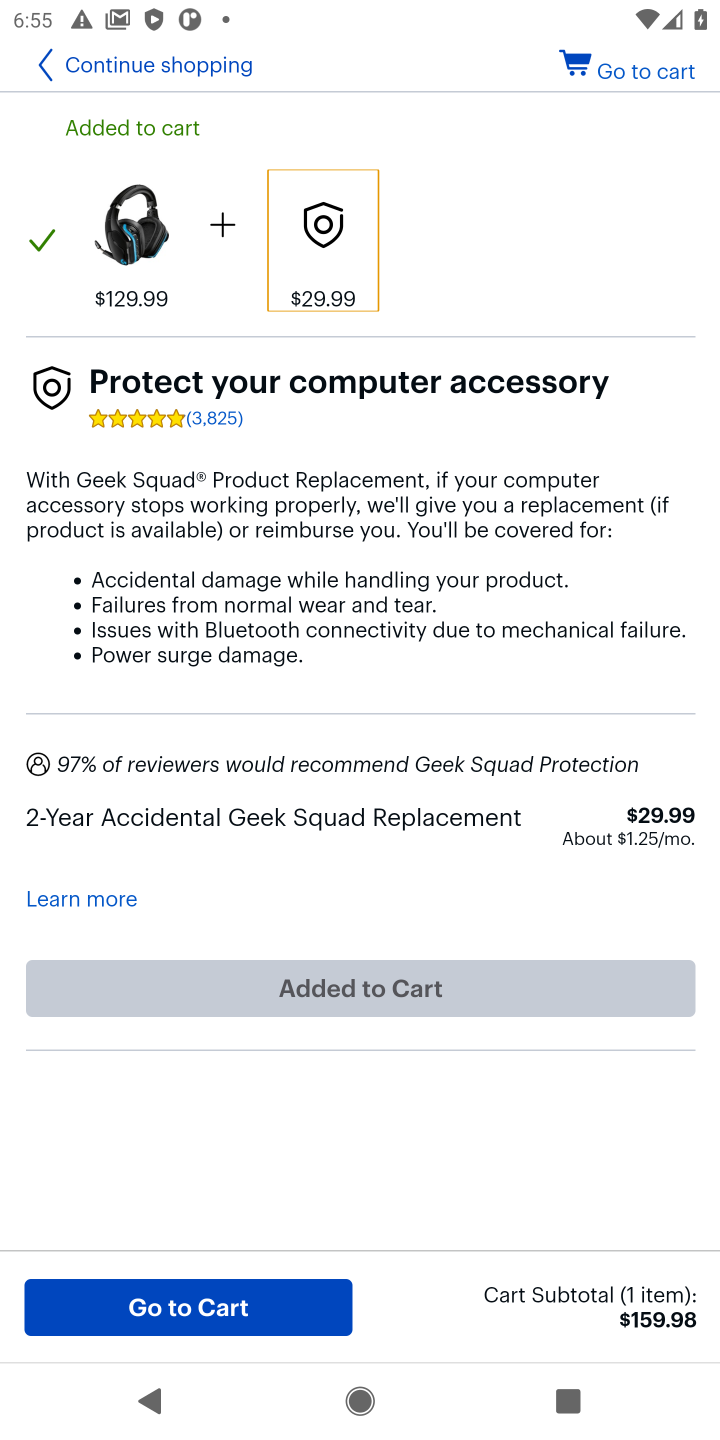
Step 32: click (249, 1301)
Your task to perform on an android device: Show the shopping cart on bestbuy. Search for "logitech g933" on bestbuy, select the first entry, and add it to the cart. Image 33: 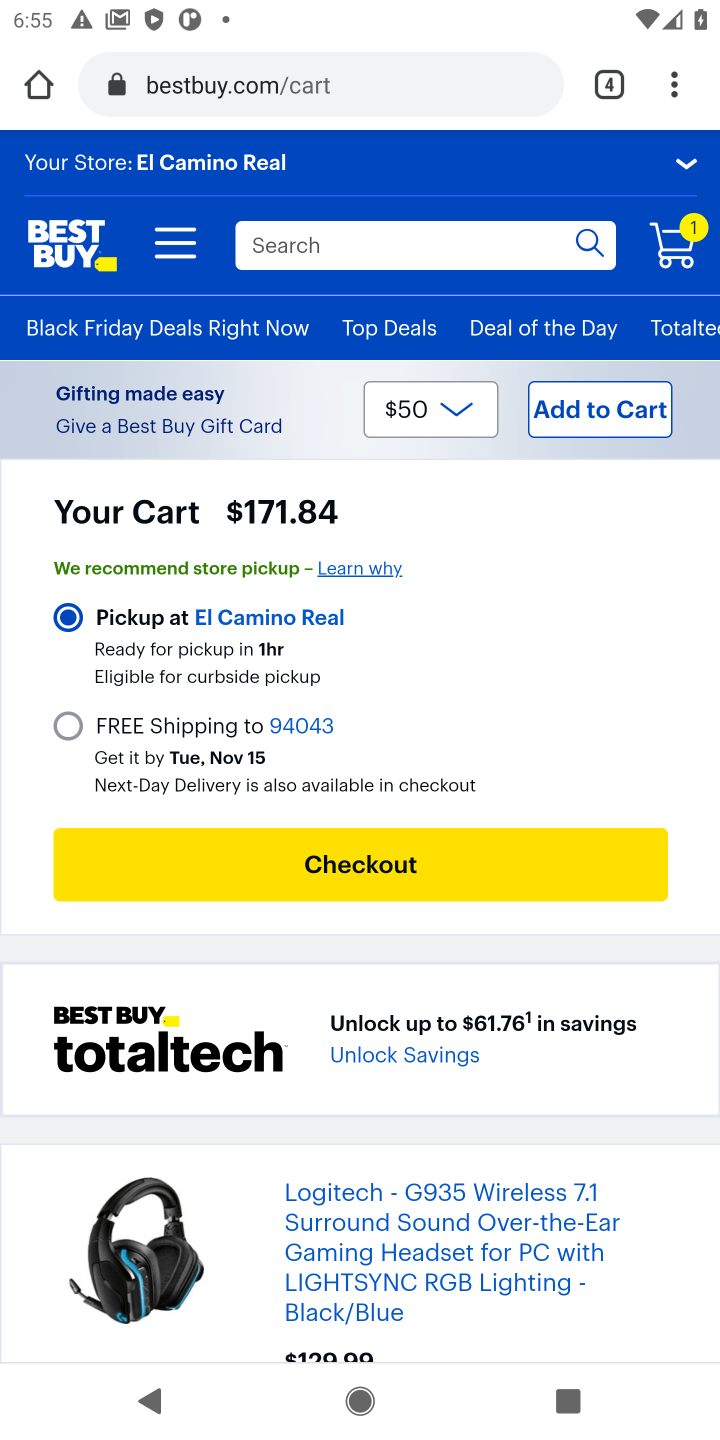
Step 33: click (369, 867)
Your task to perform on an android device: Show the shopping cart on bestbuy. Search for "logitech g933" on bestbuy, select the first entry, and add it to the cart. Image 34: 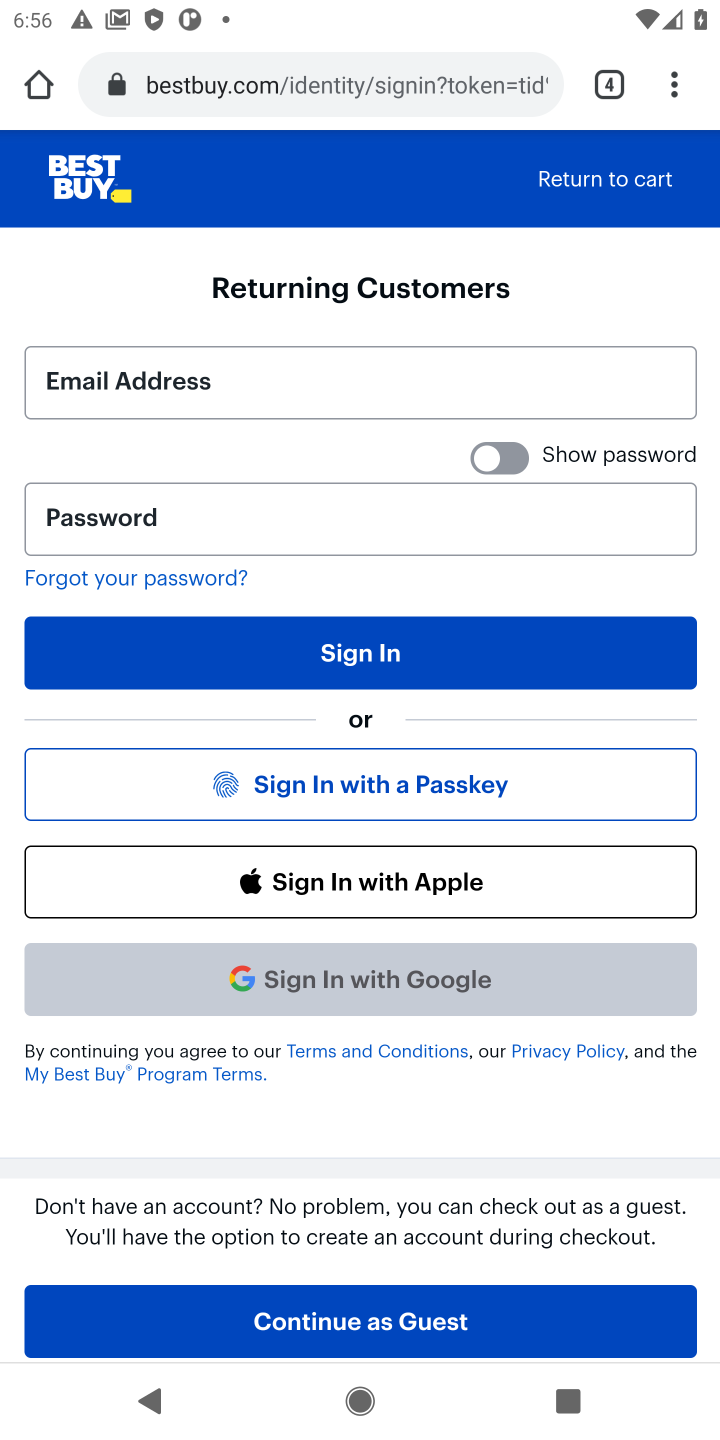
Step 34: task complete